Your task to perform on an android device: Show me recent news Image 0: 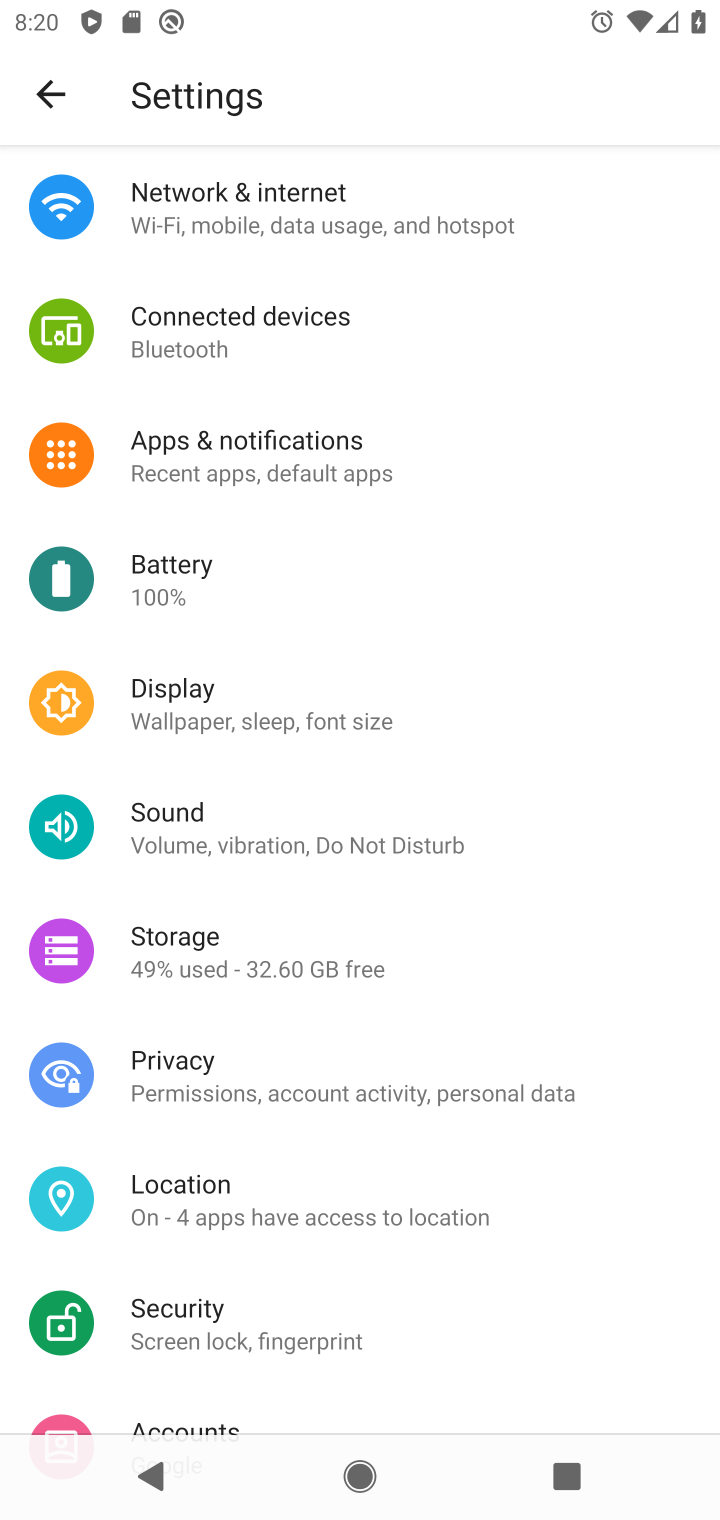
Step 0: press back button
Your task to perform on an android device: Show me recent news Image 1: 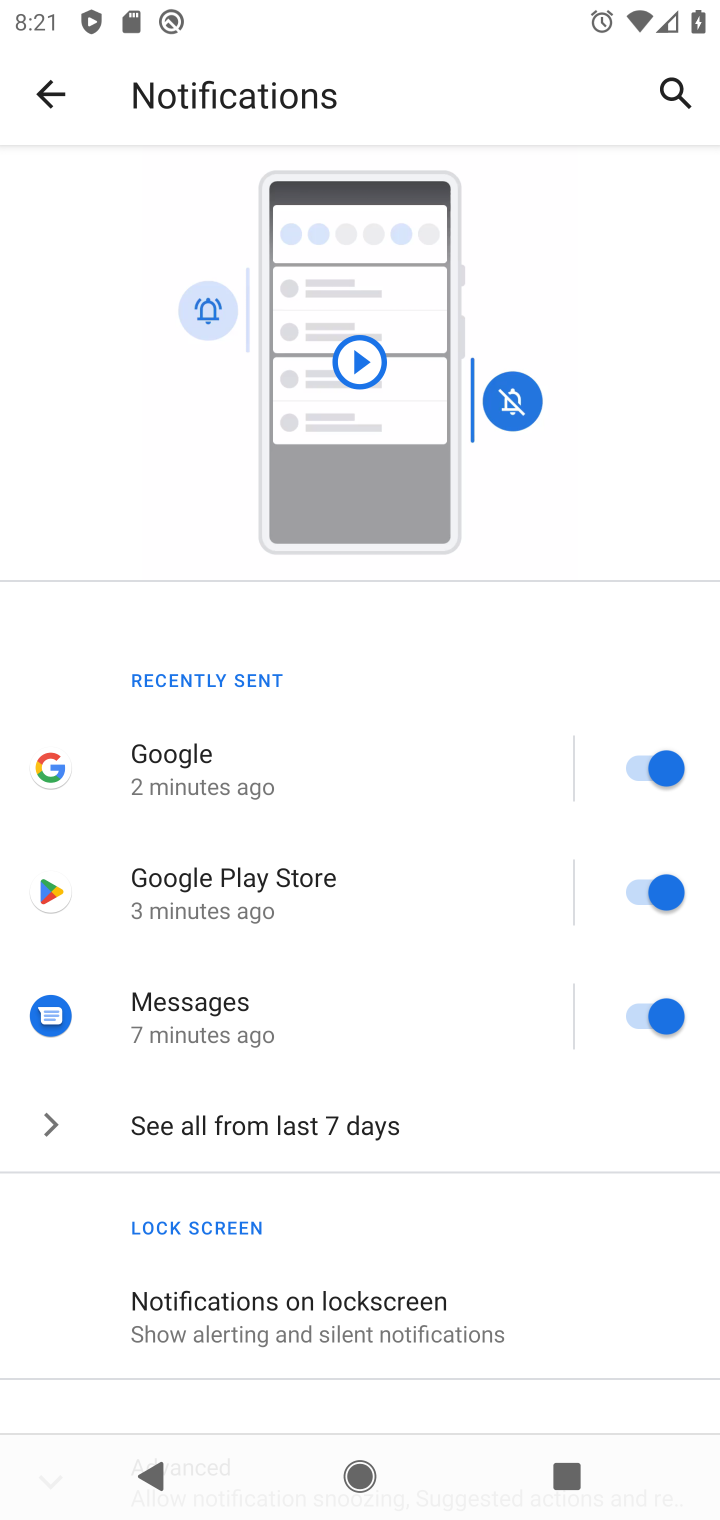
Step 1: click (45, 96)
Your task to perform on an android device: Show me recent news Image 2: 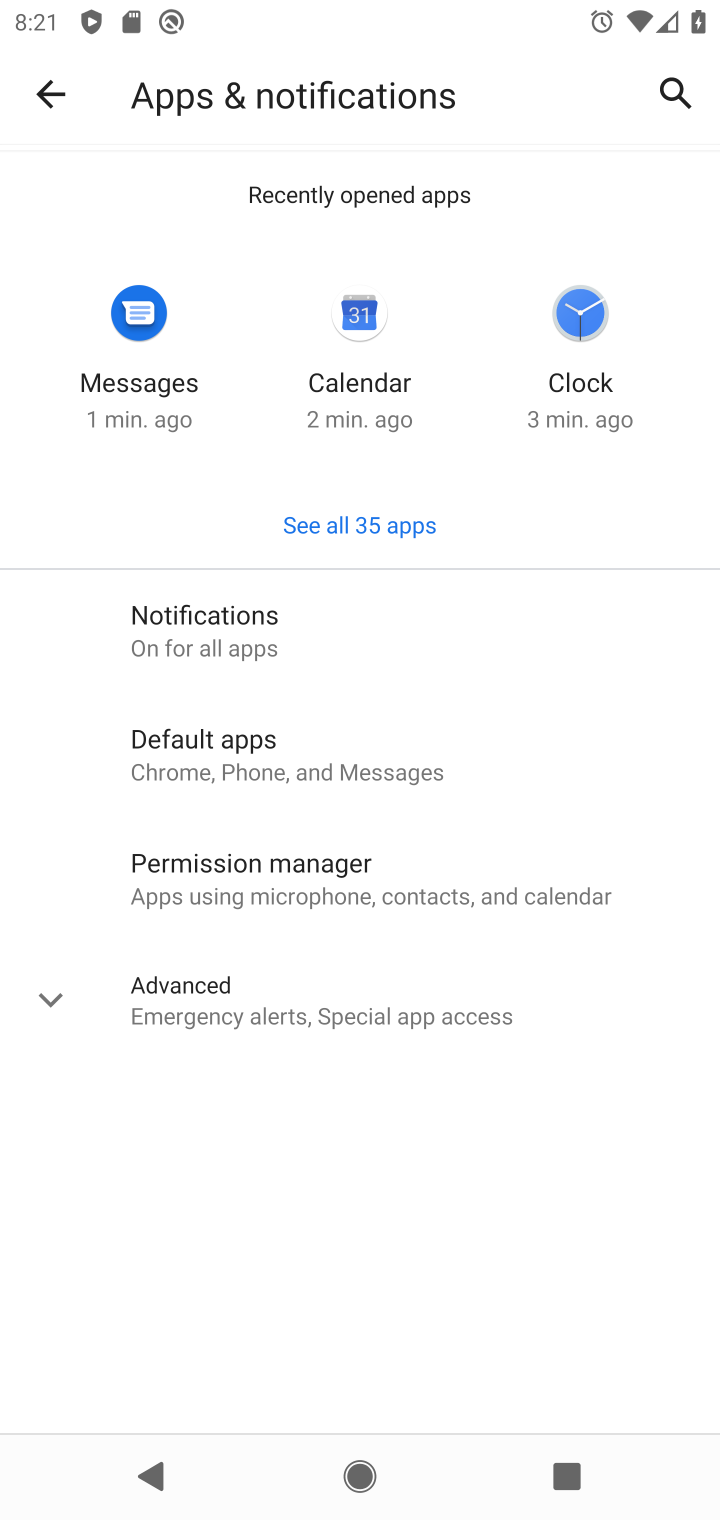
Step 2: click (48, 105)
Your task to perform on an android device: Show me recent news Image 3: 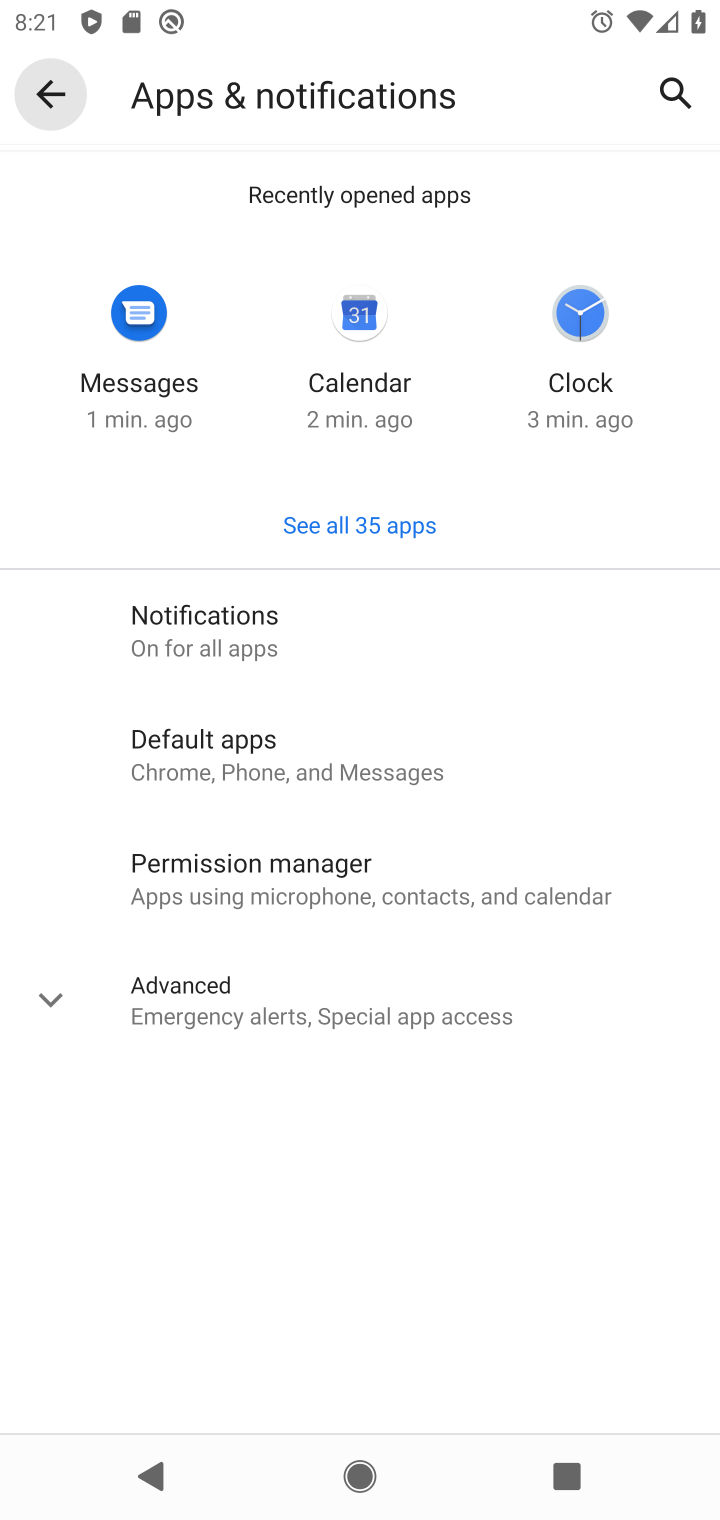
Step 3: click (48, 103)
Your task to perform on an android device: Show me recent news Image 4: 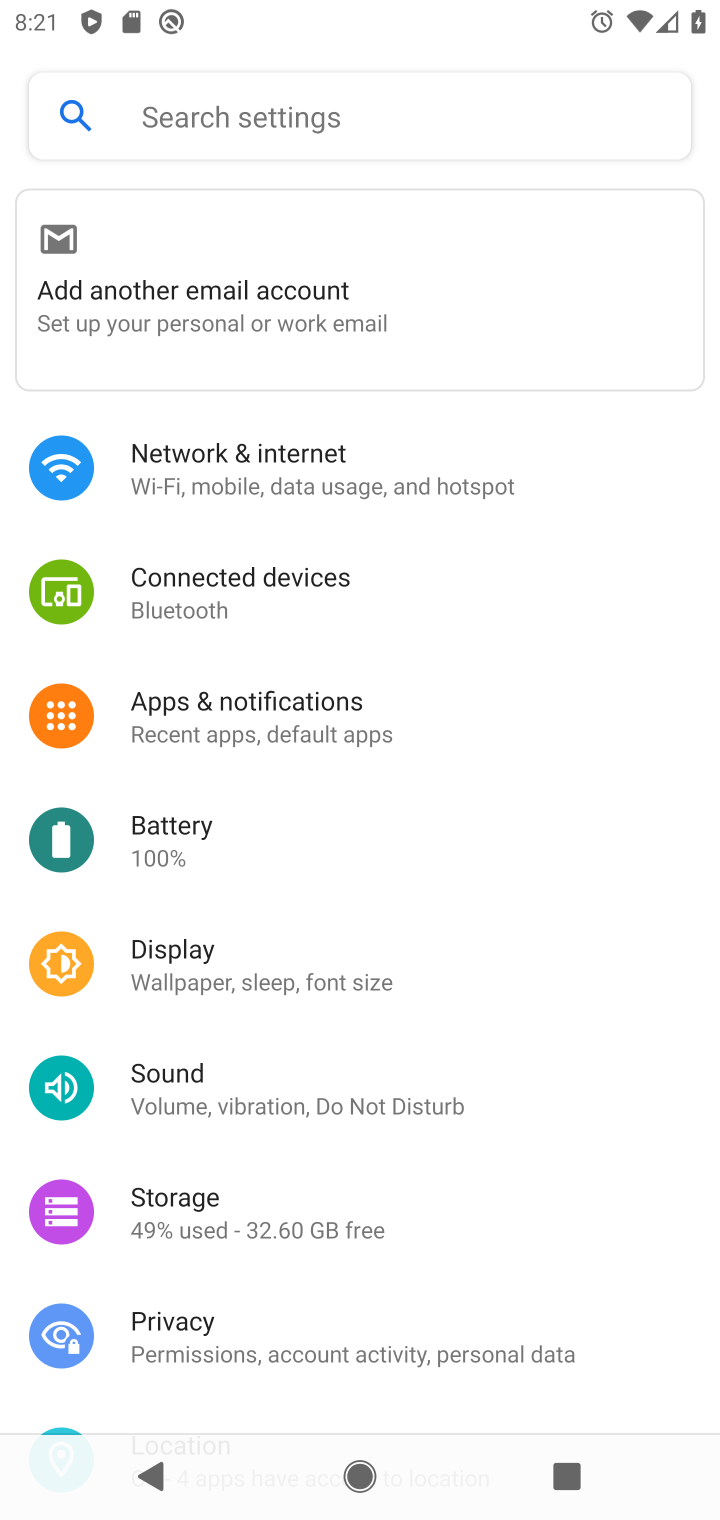
Step 4: press back button
Your task to perform on an android device: Show me recent news Image 5: 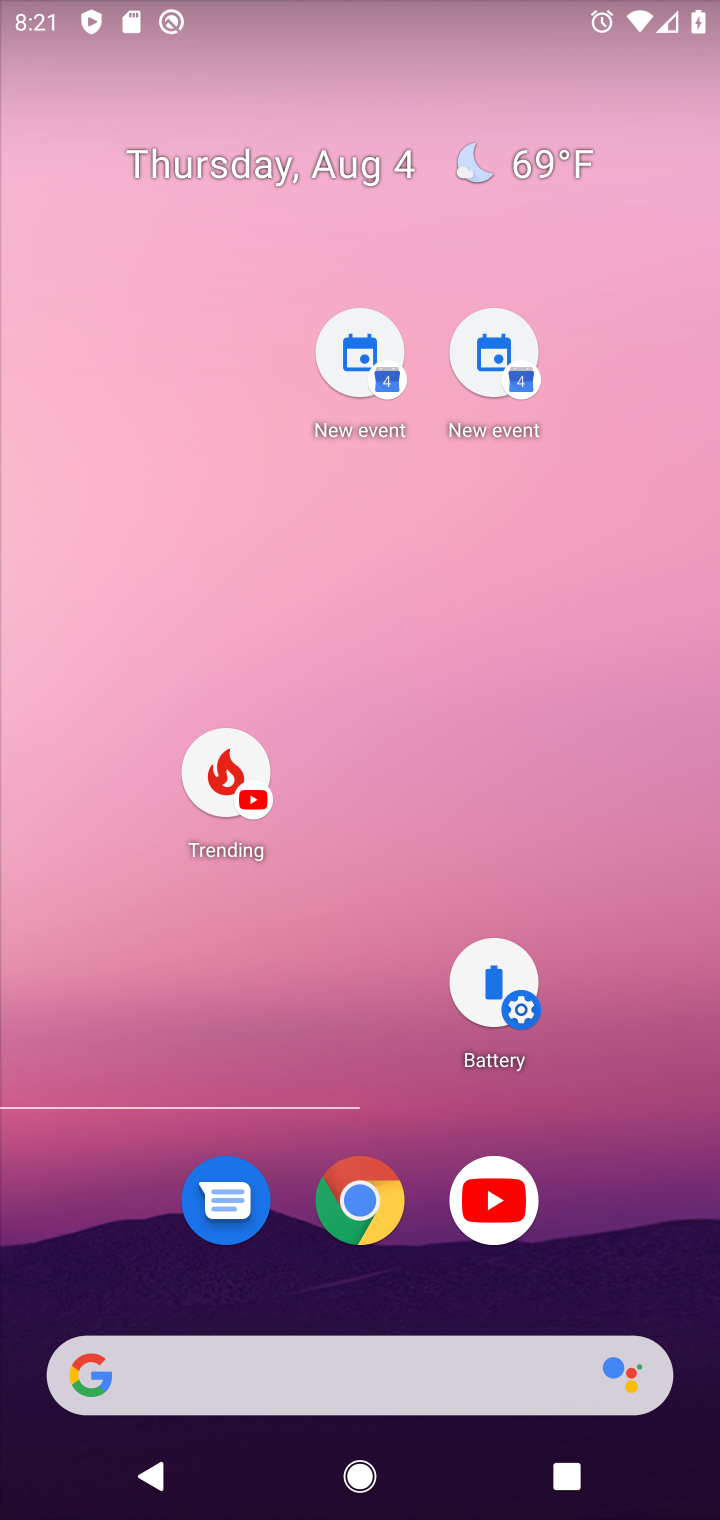
Step 5: click (425, 435)
Your task to perform on an android device: Show me recent news Image 6: 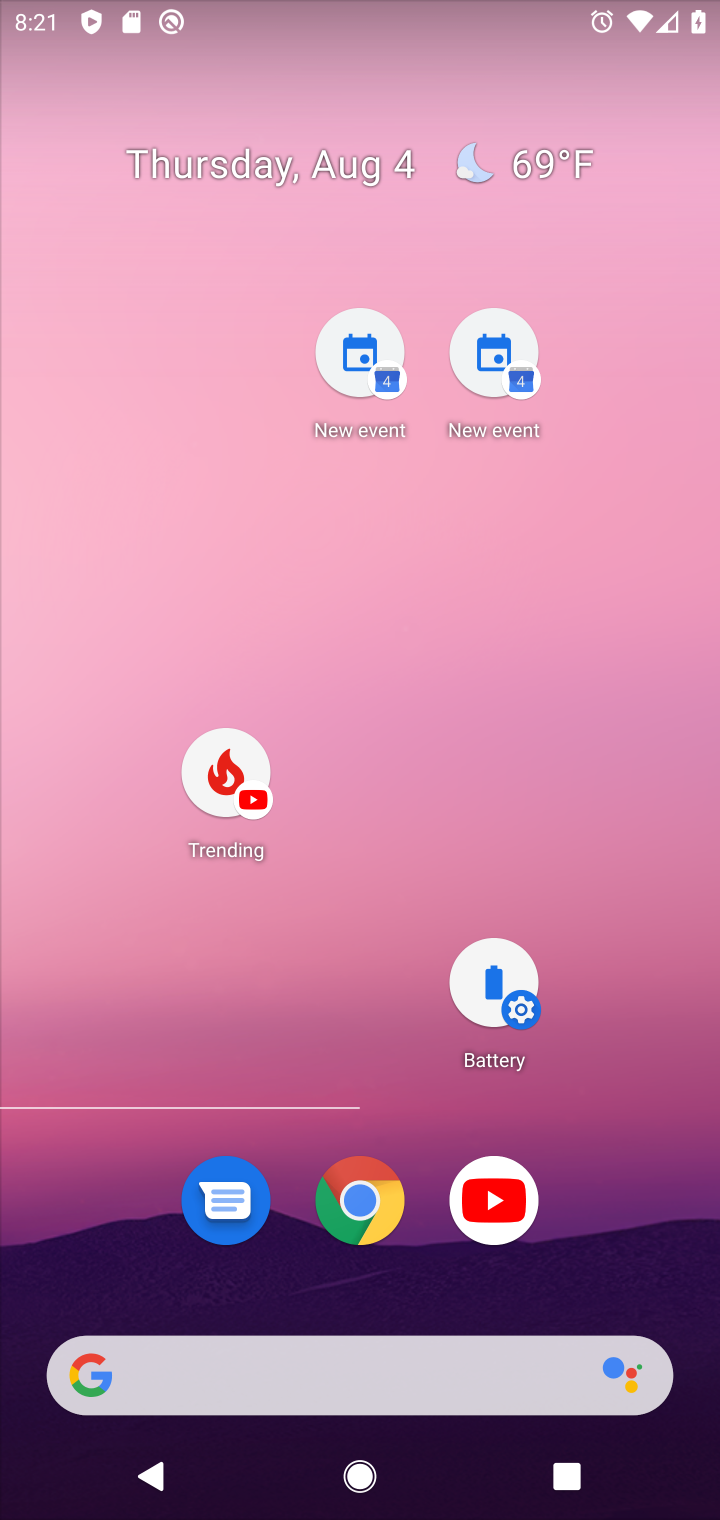
Step 6: drag from (270, 857) to (72, 593)
Your task to perform on an android device: Show me recent news Image 7: 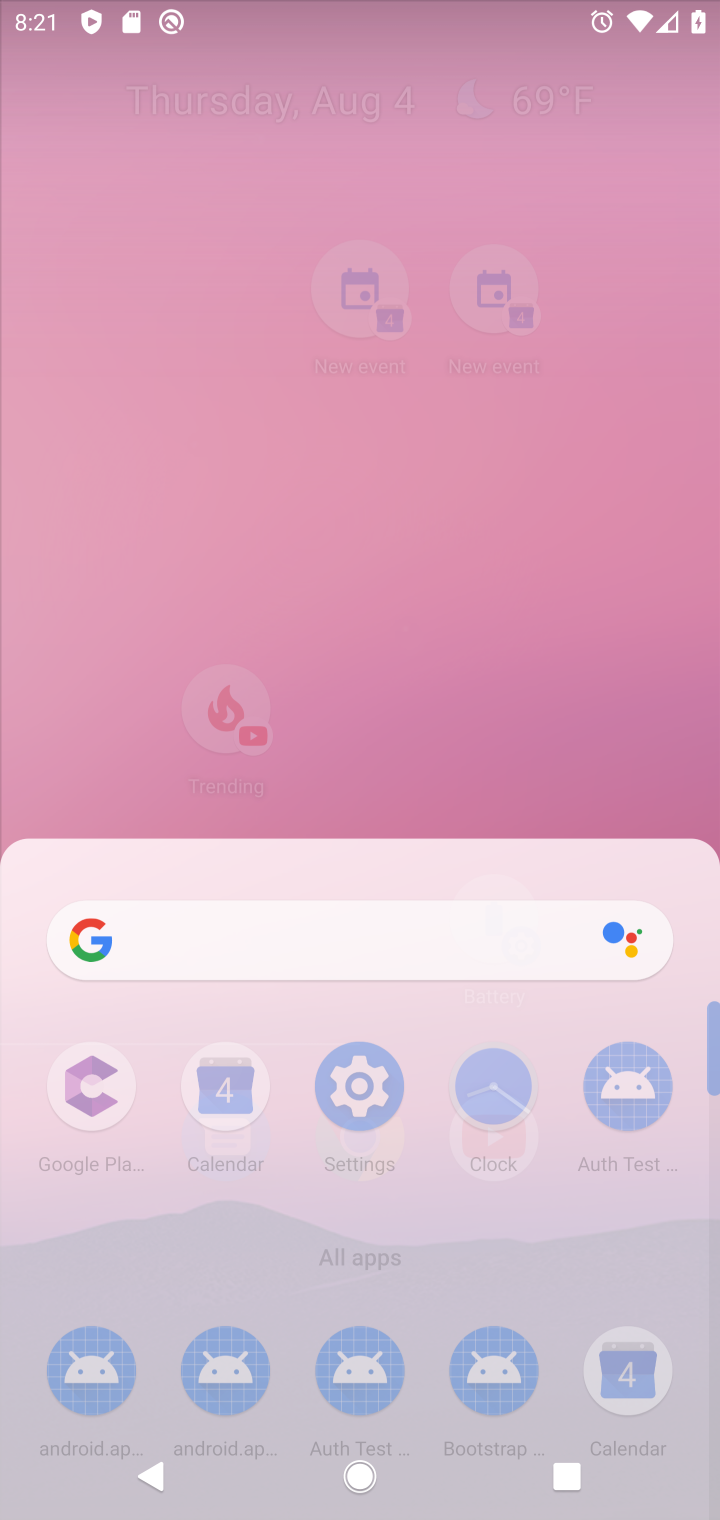
Step 7: drag from (337, 150) to (386, 290)
Your task to perform on an android device: Show me recent news Image 8: 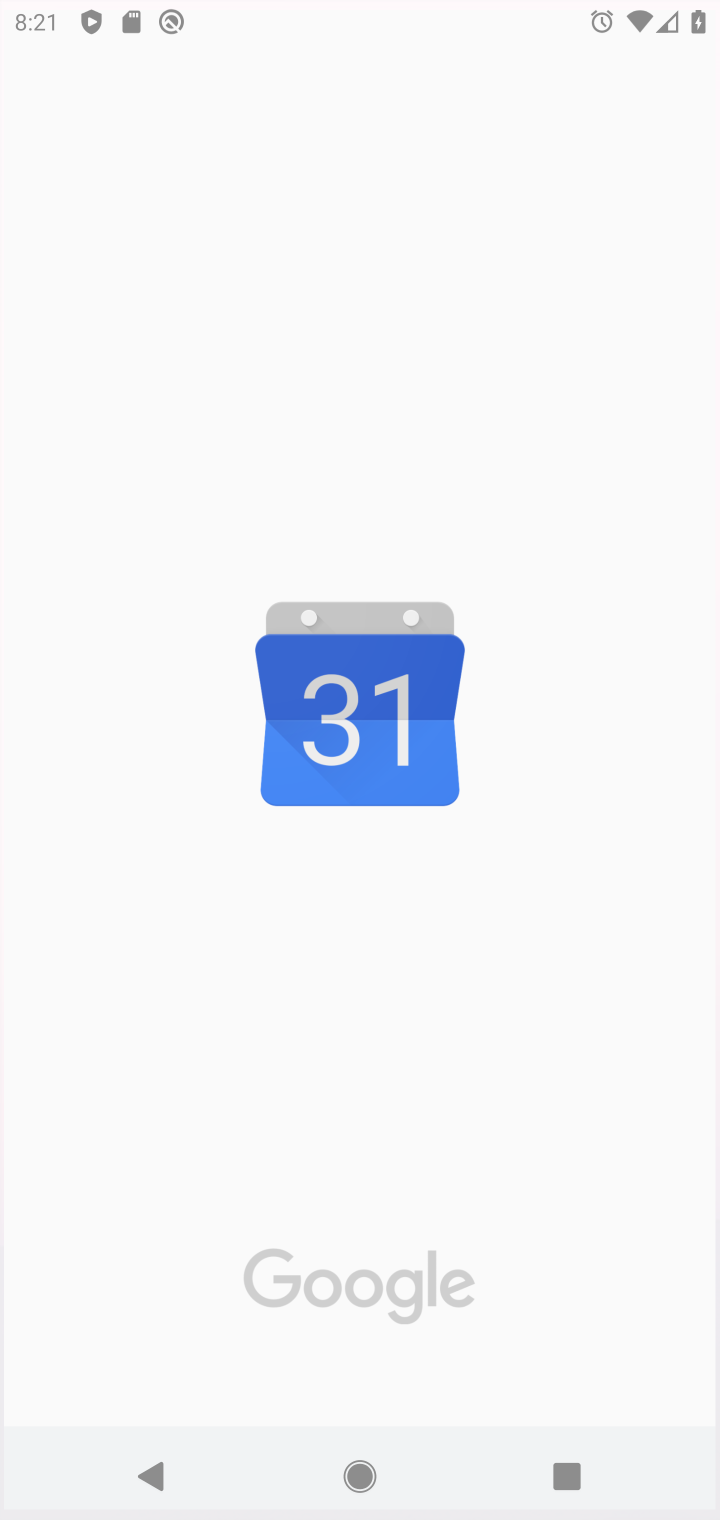
Step 8: drag from (357, 987) to (347, 595)
Your task to perform on an android device: Show me recent news Image 9: 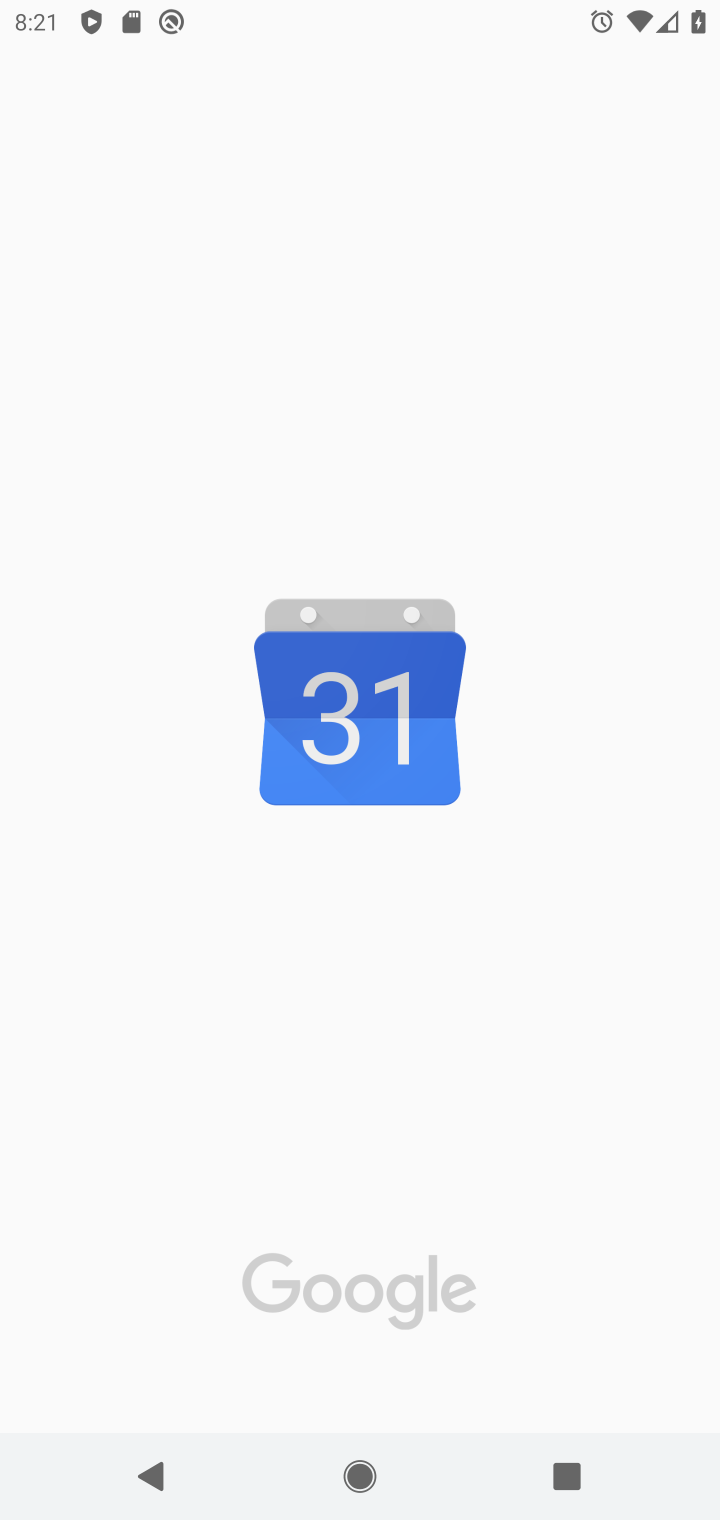
Step 9: click (338, 624)
Your task to perform on an android device: Show me recent news Image 10: 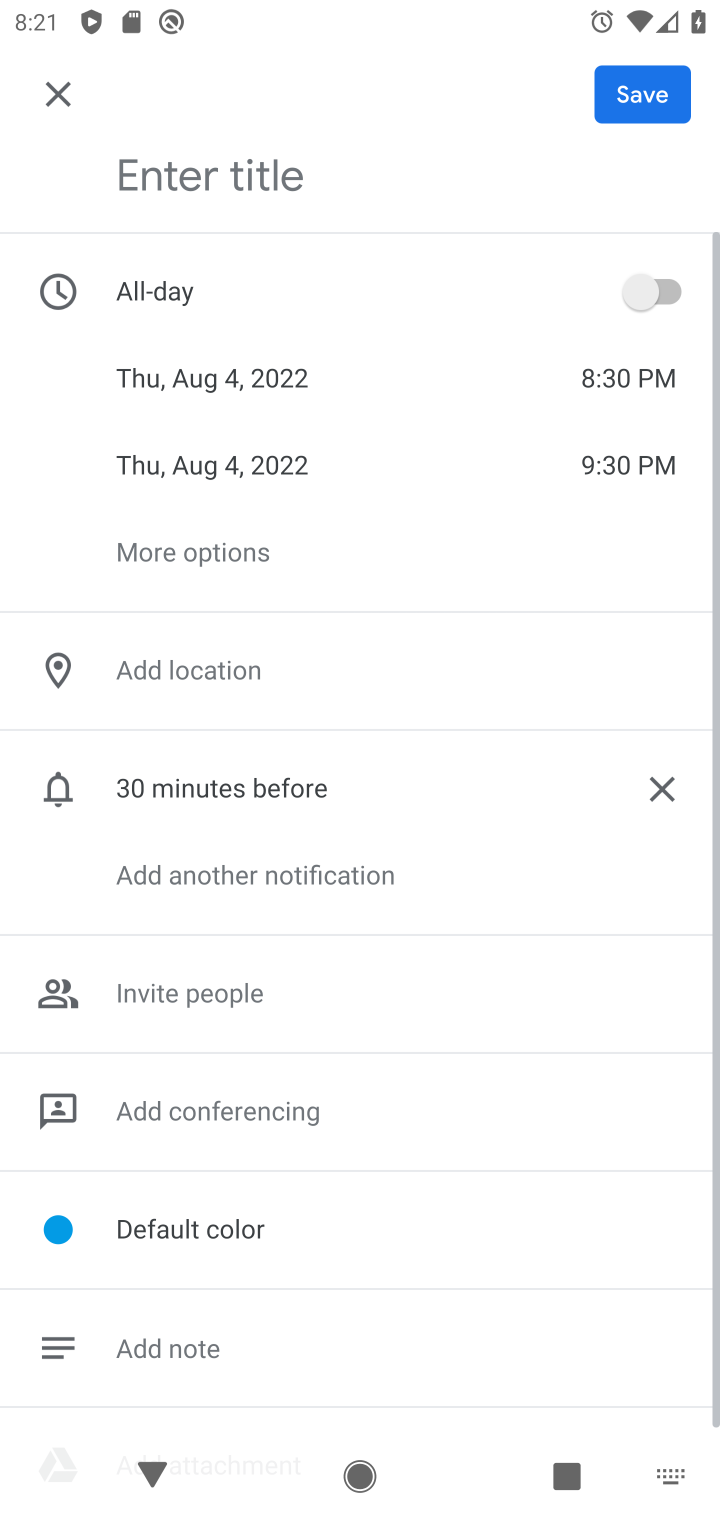
Step 10: press back button
Your task to perform on an android device: Show me recent news Image 11: 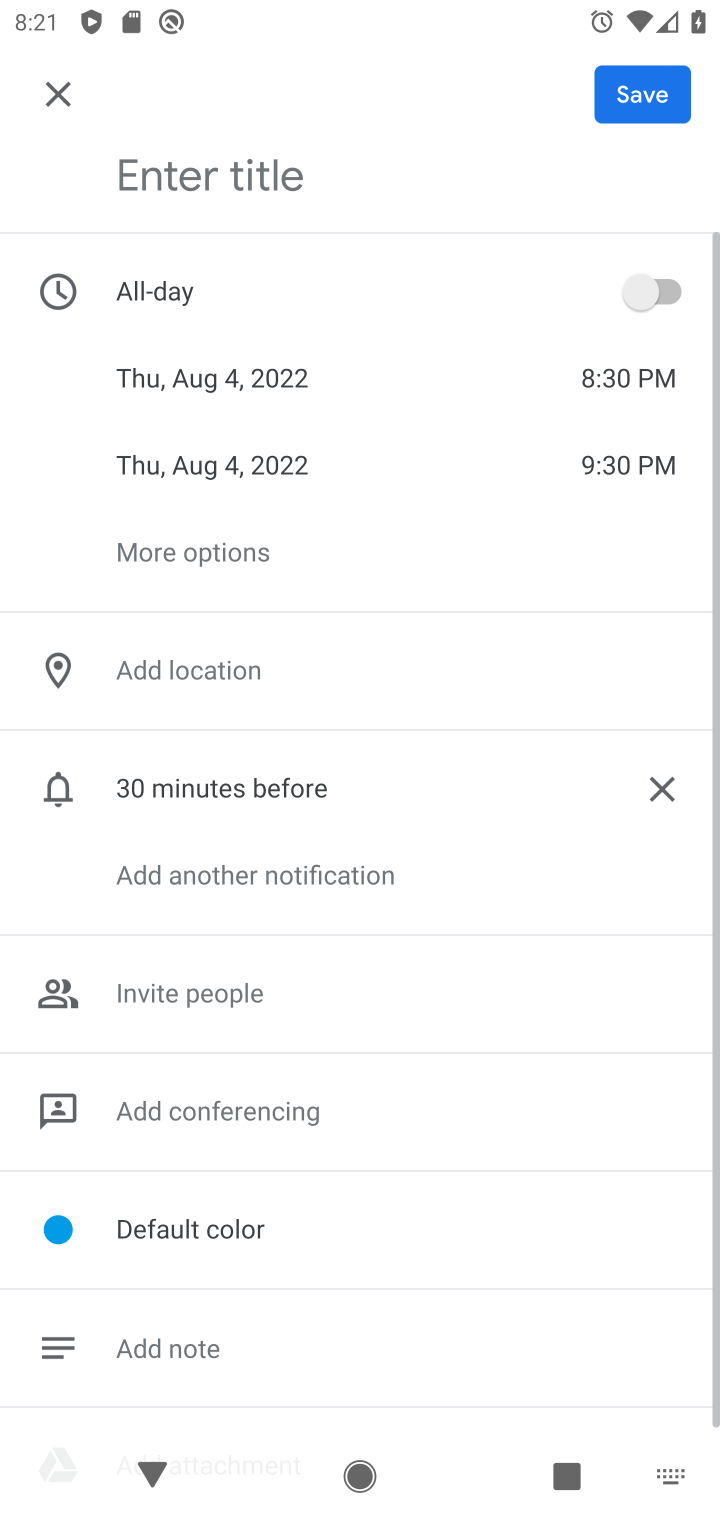
Step 11: click (46, 83)
Your task to perform on an android device: Show me recent news Image 12: 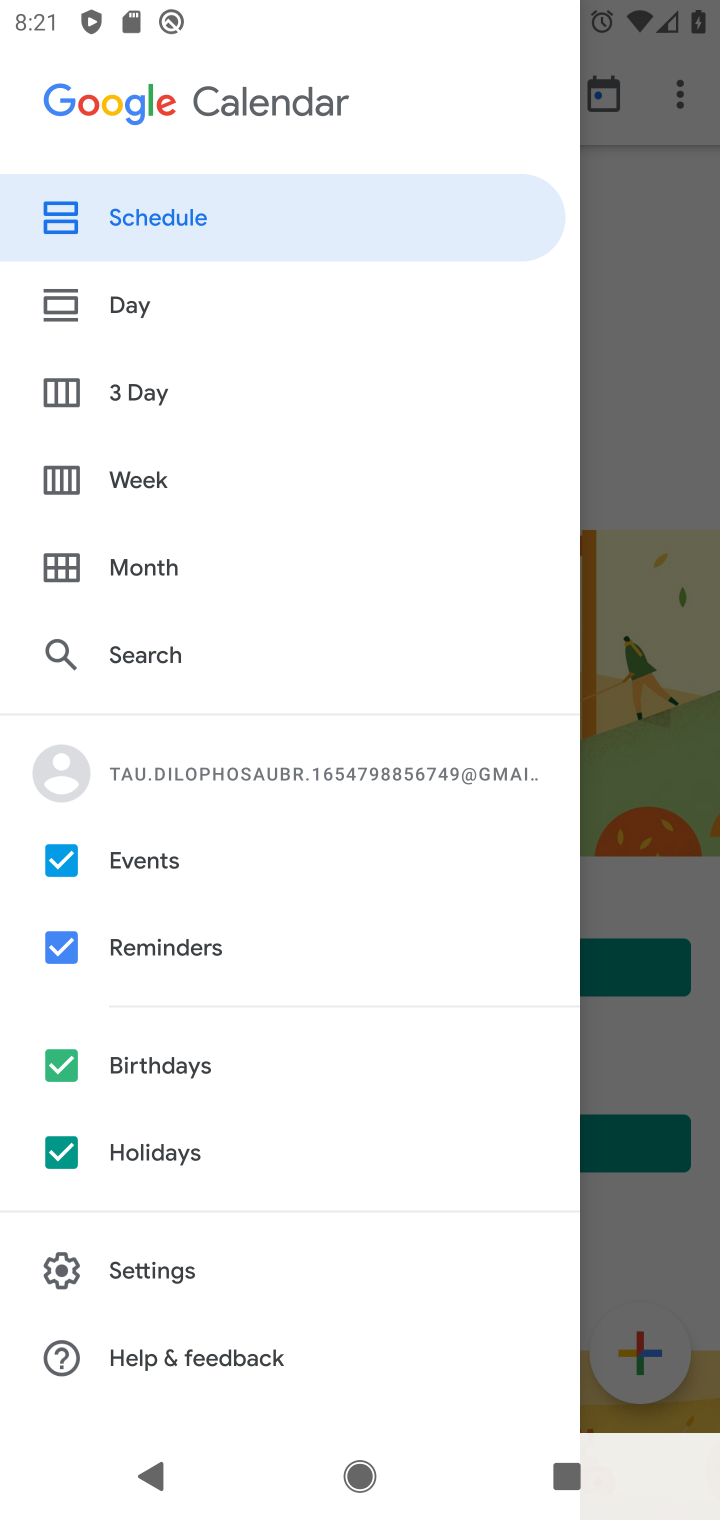
Step 12: press home button
Your task to perform on an android device: Show me recent news Image 13: 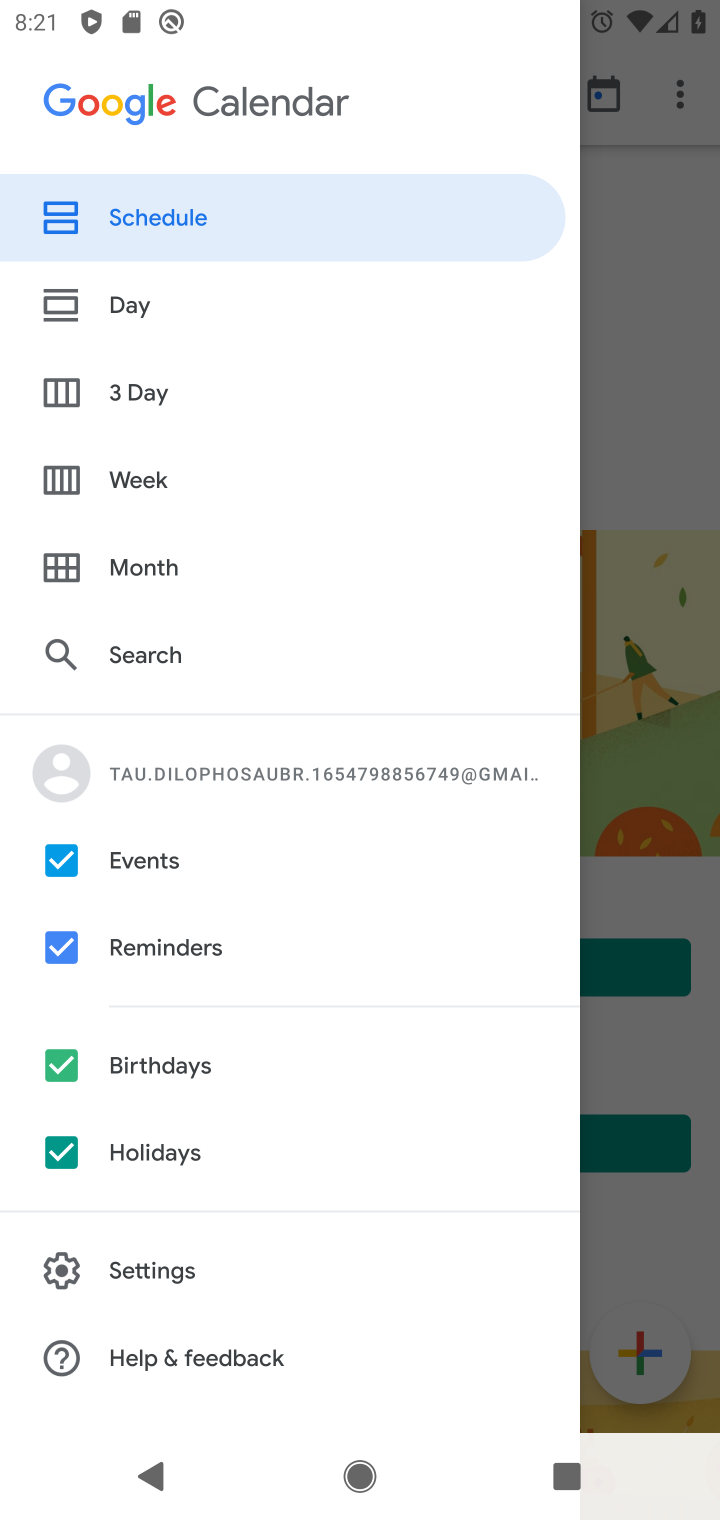
Step 13: click (603, 858)
Your task to perform on an android device: Show me recent news Image 14: 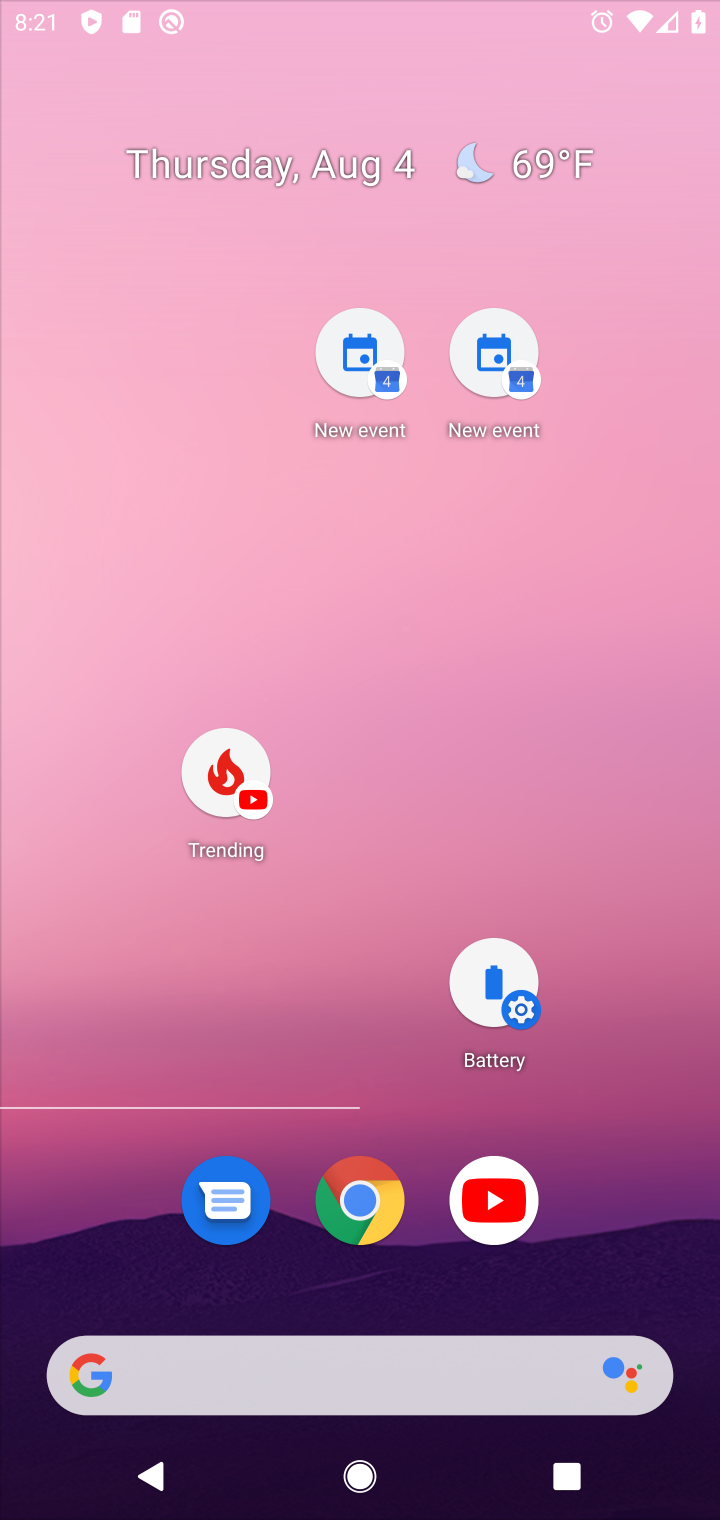
Step 14: click (603, 858)
Your task to perform on an android device: Show me recent news Image 15: 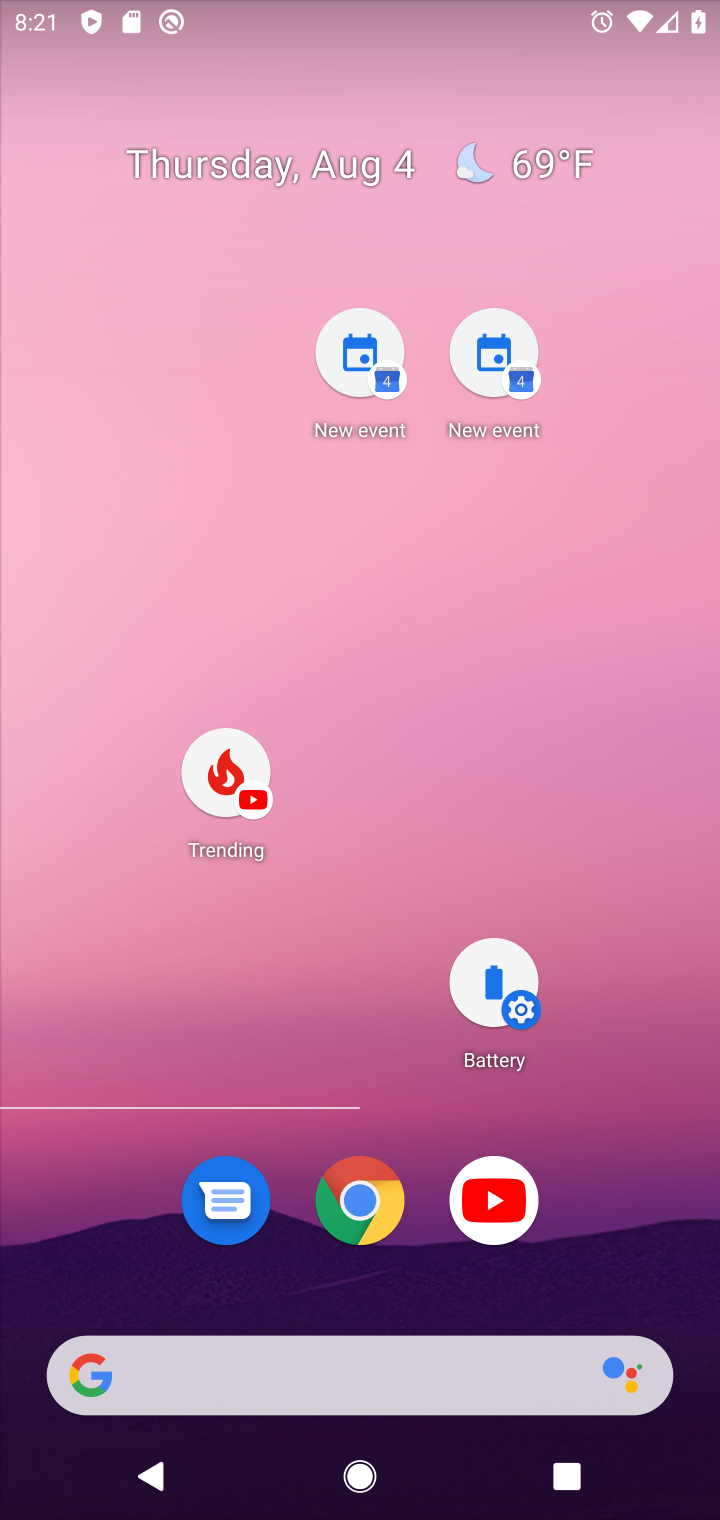
Step 15: drag from (403, 1394) to (368, 446)
Your task to perform on an android device: Show me recent news Image 16: 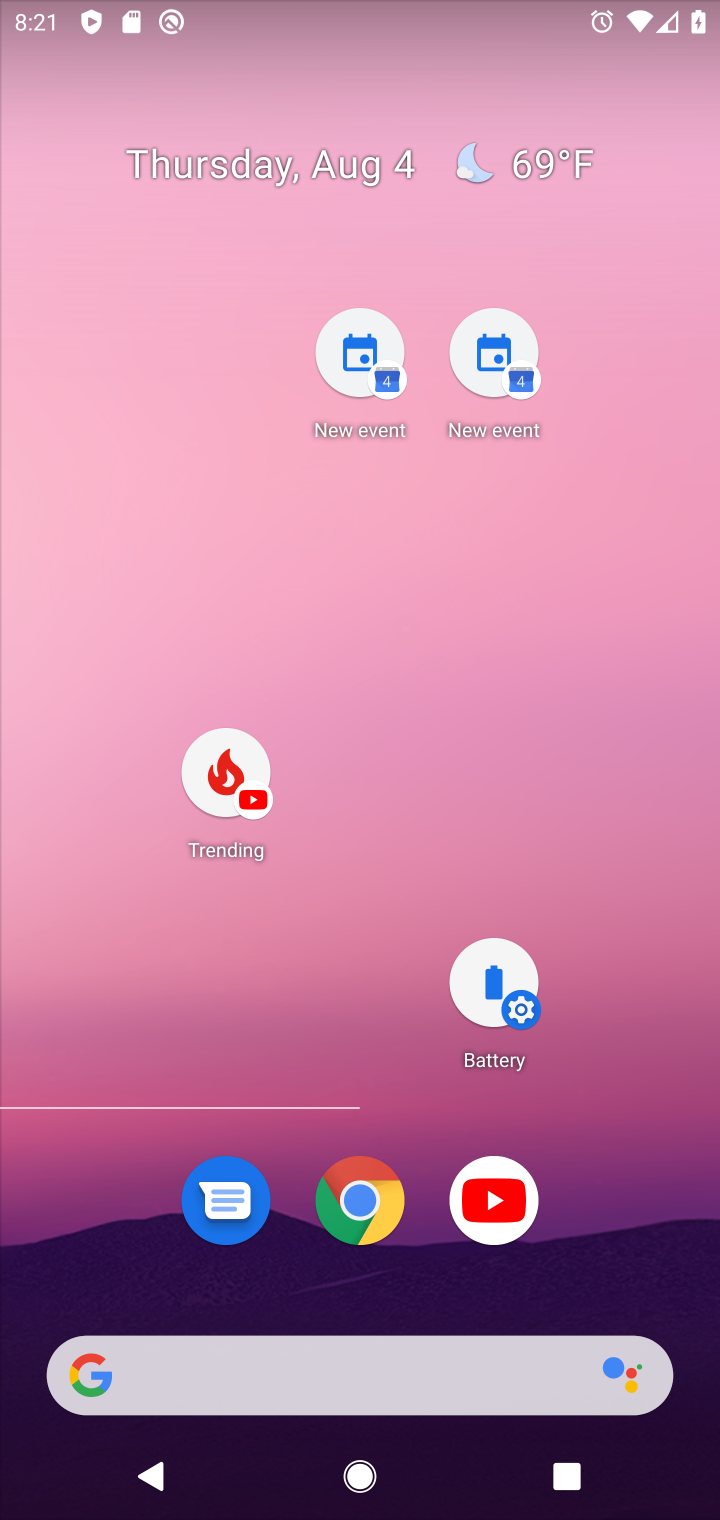
Step 16: drag from (463, 1199) to (458, 560)
Your task to perform on an android device: Show me recent news Image 17: 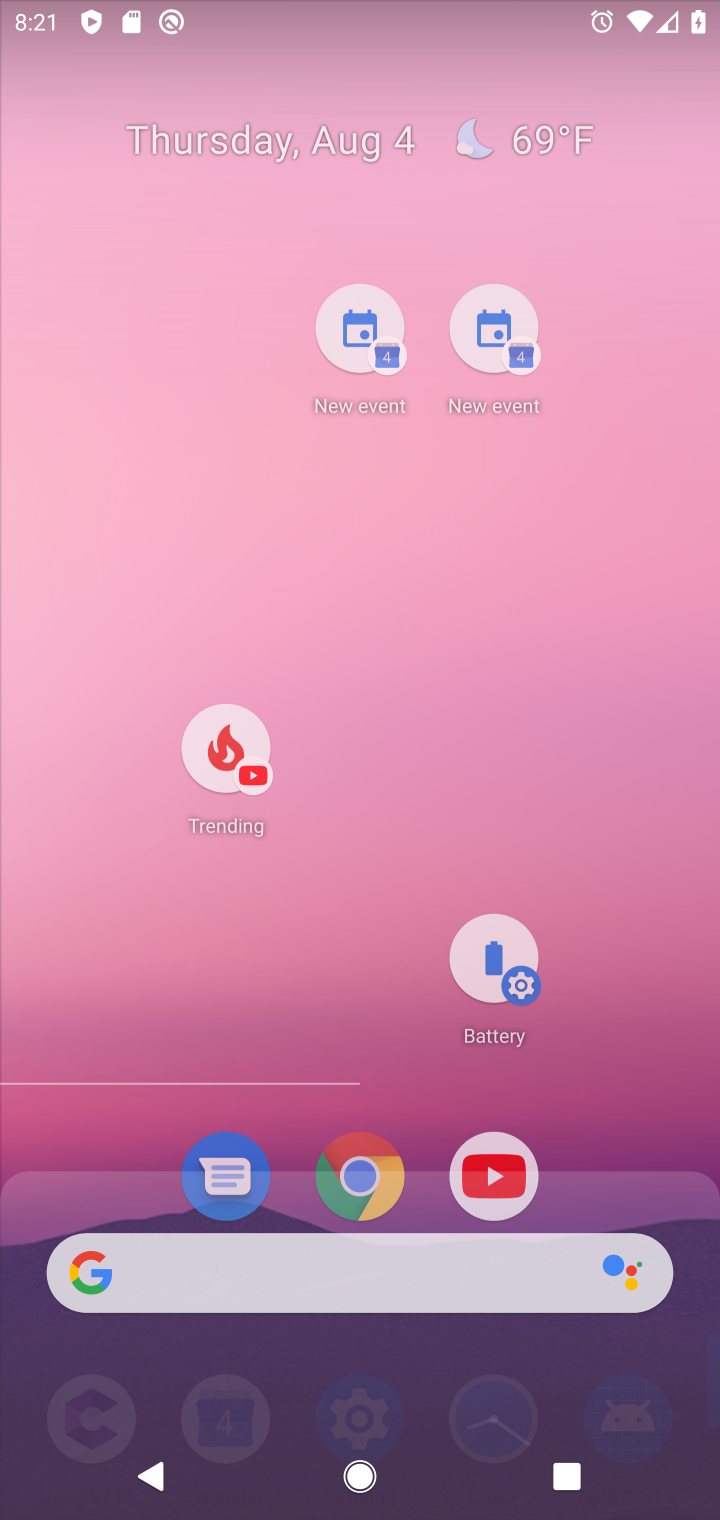
Step 17: drag from (487, 1242) to (389, 565)
Your task to perform on an android device: Show me recent news Image 18: 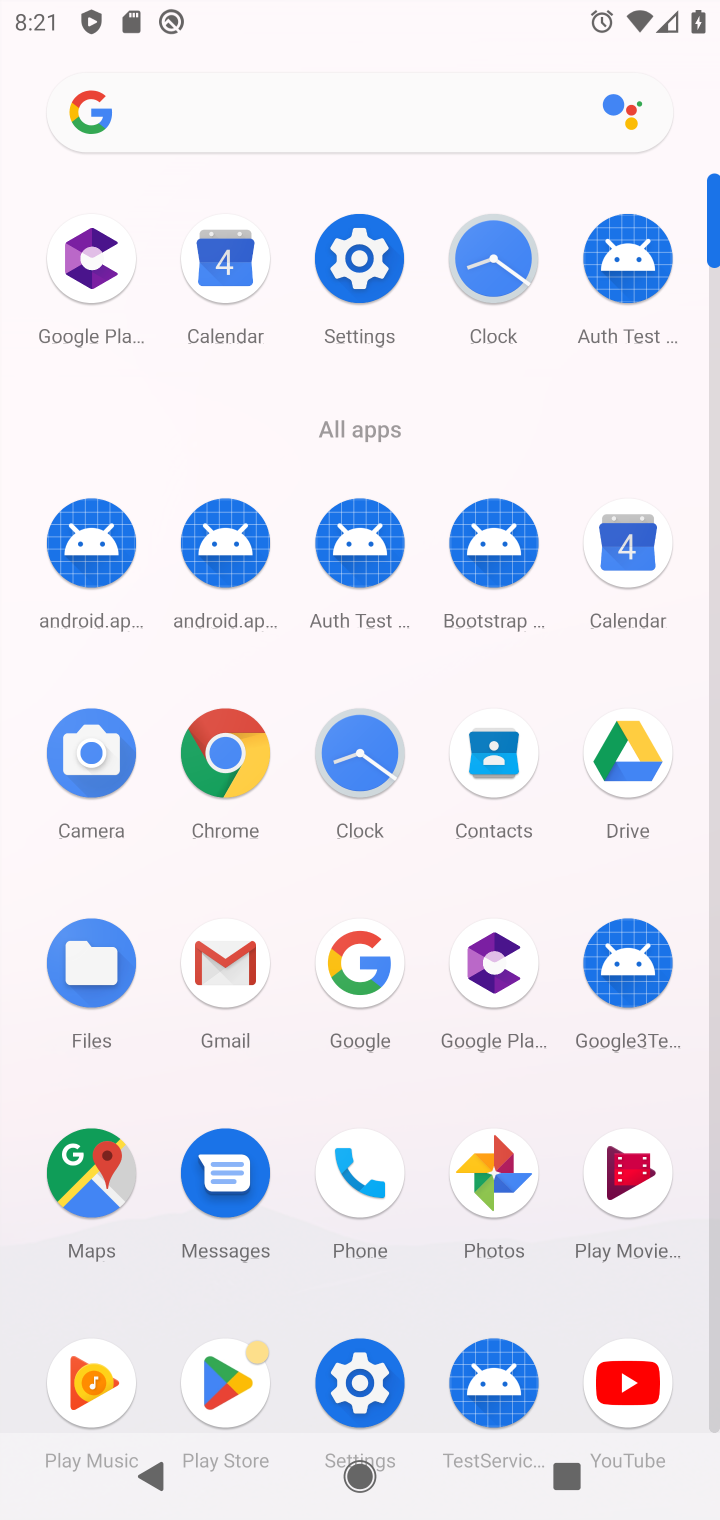
Step 18: click (240, 752)
Your task to perform on an android device: Show me recent news Image 19: 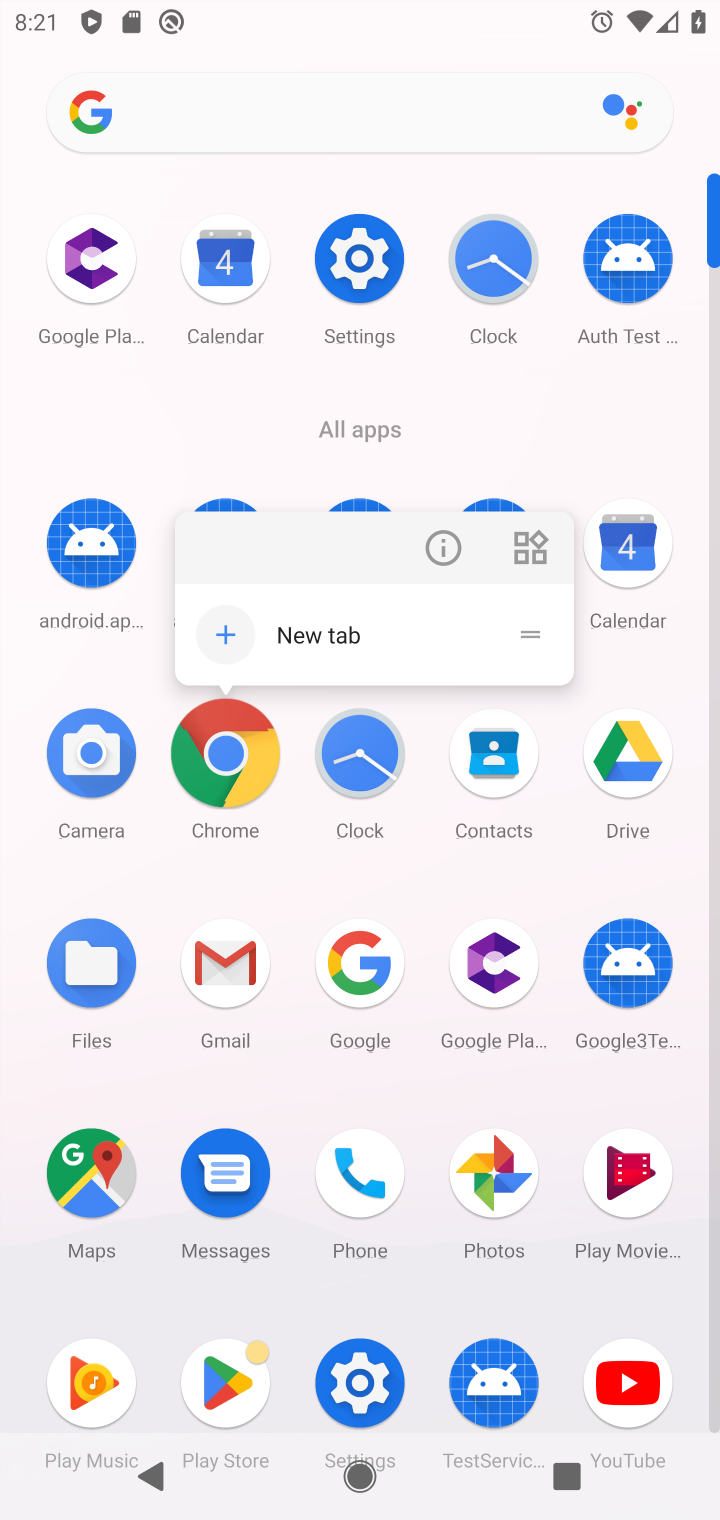
Step 19: click (240, 752)
Your task to perform on an android device: Show me recent news Image 20: 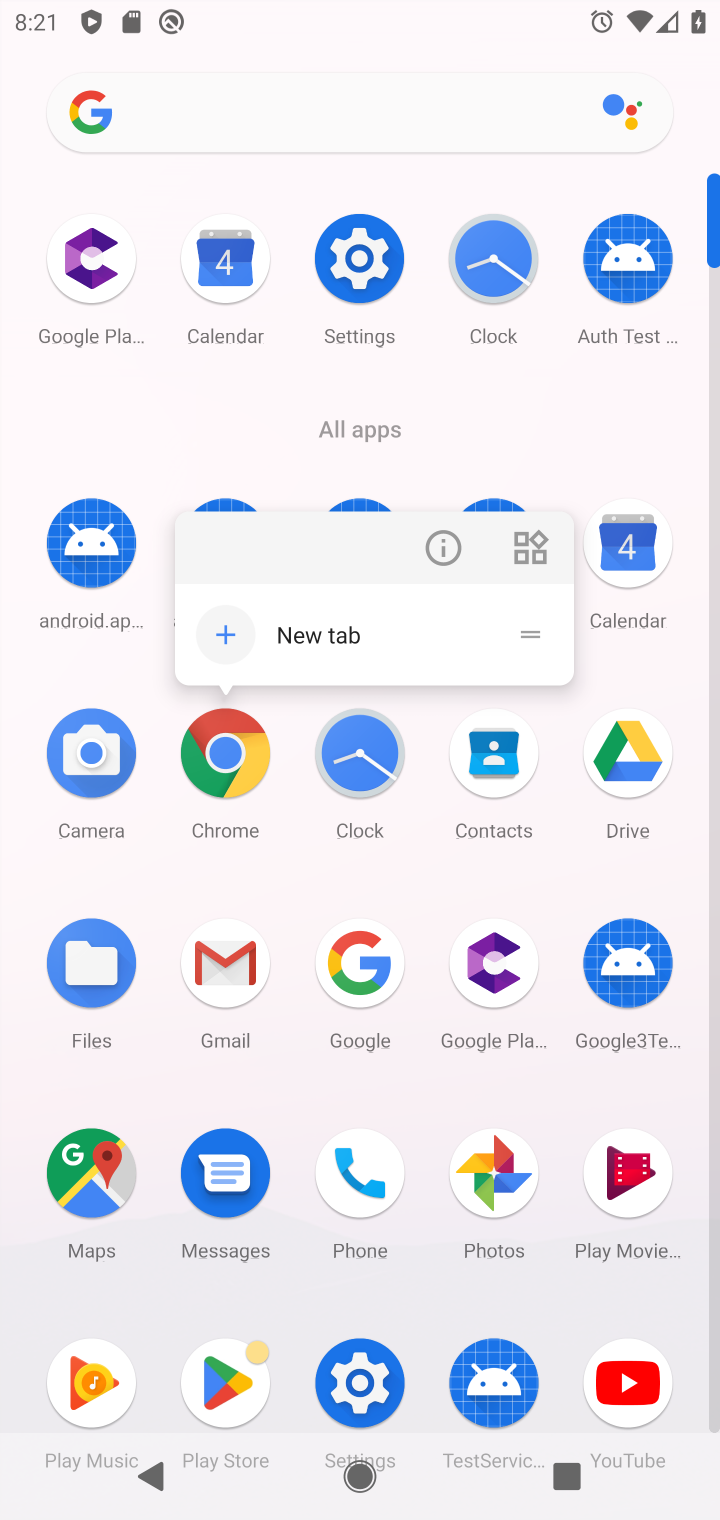
Step 20: click (315, 621)
Your task to perform on an android device: Show me recent news Image 21: 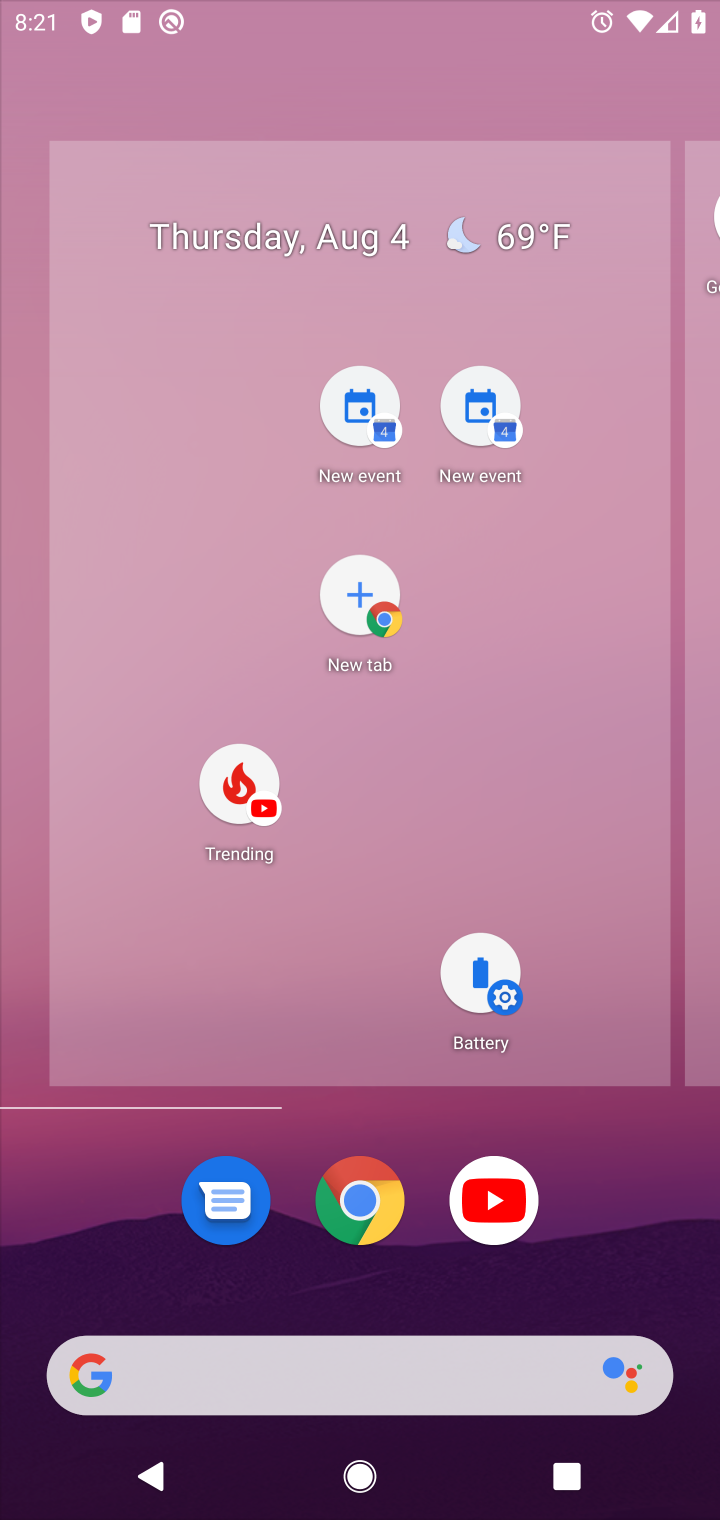
Step 21: drag from (438, 1287) to (364, 592)
Your task to perform on an android device: Show me recent news Image 22: 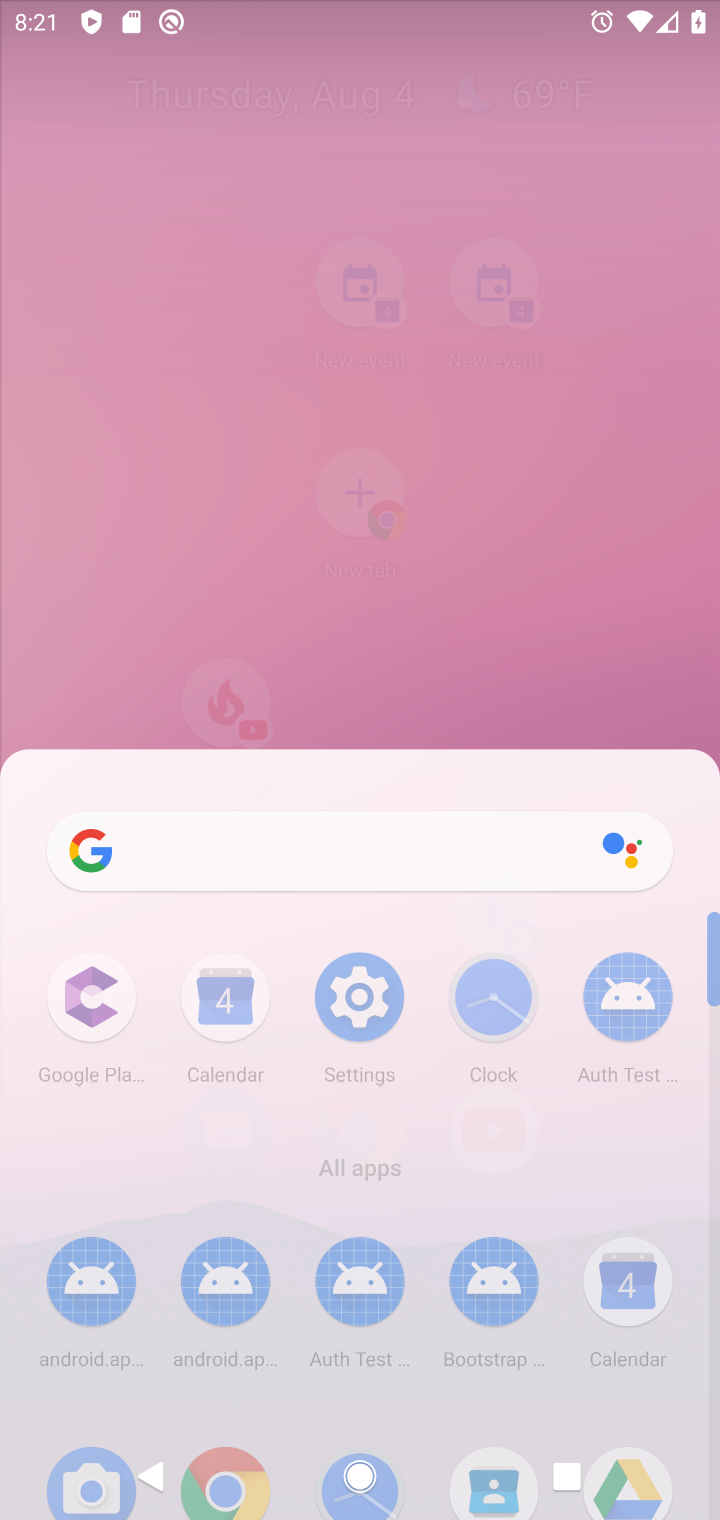
Step 22: drag from (408, 1043) to (324, 381)
Your task to perform on an android device: Show me recent news Image 23: 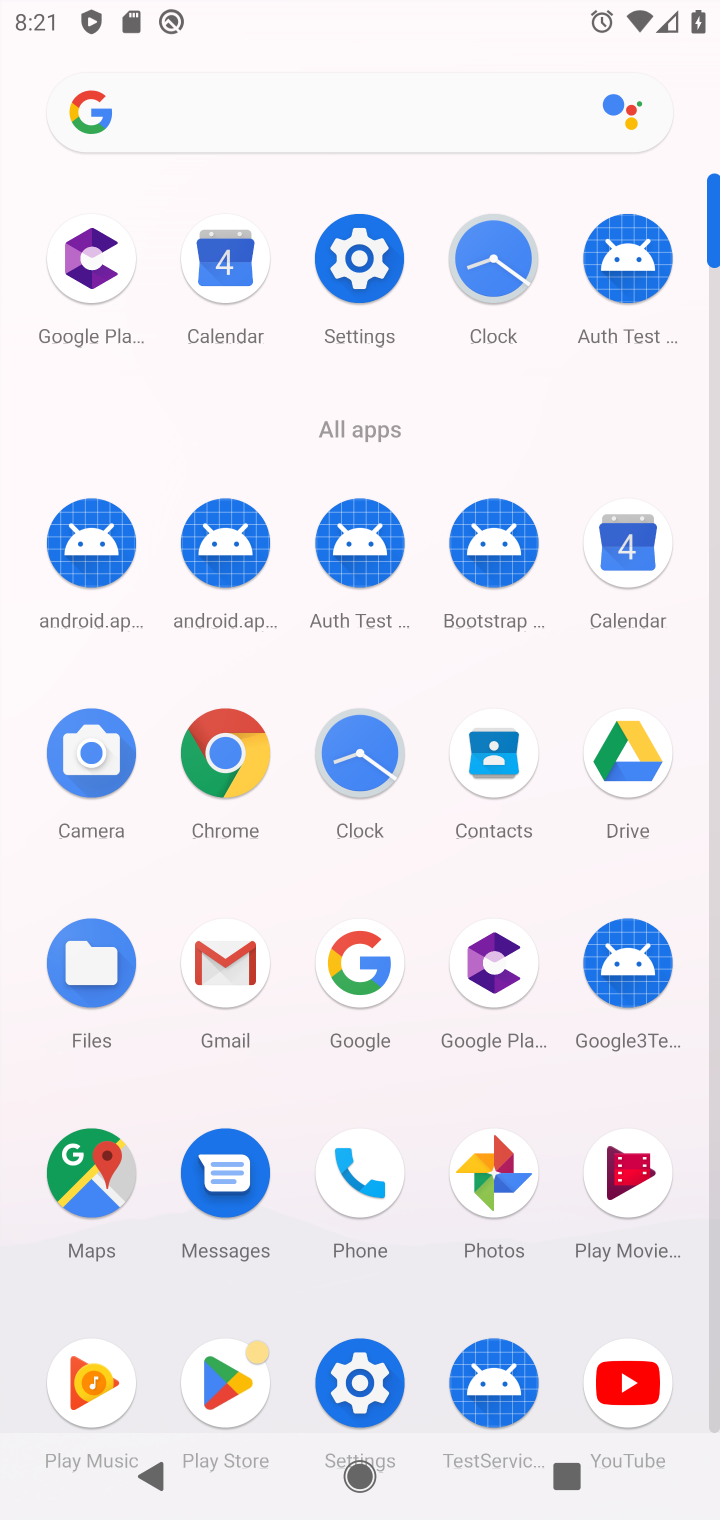
Step 23: drag from (386, 982) to (323, 590)
Your task to perform on an android device: Show me recent news Image 24: 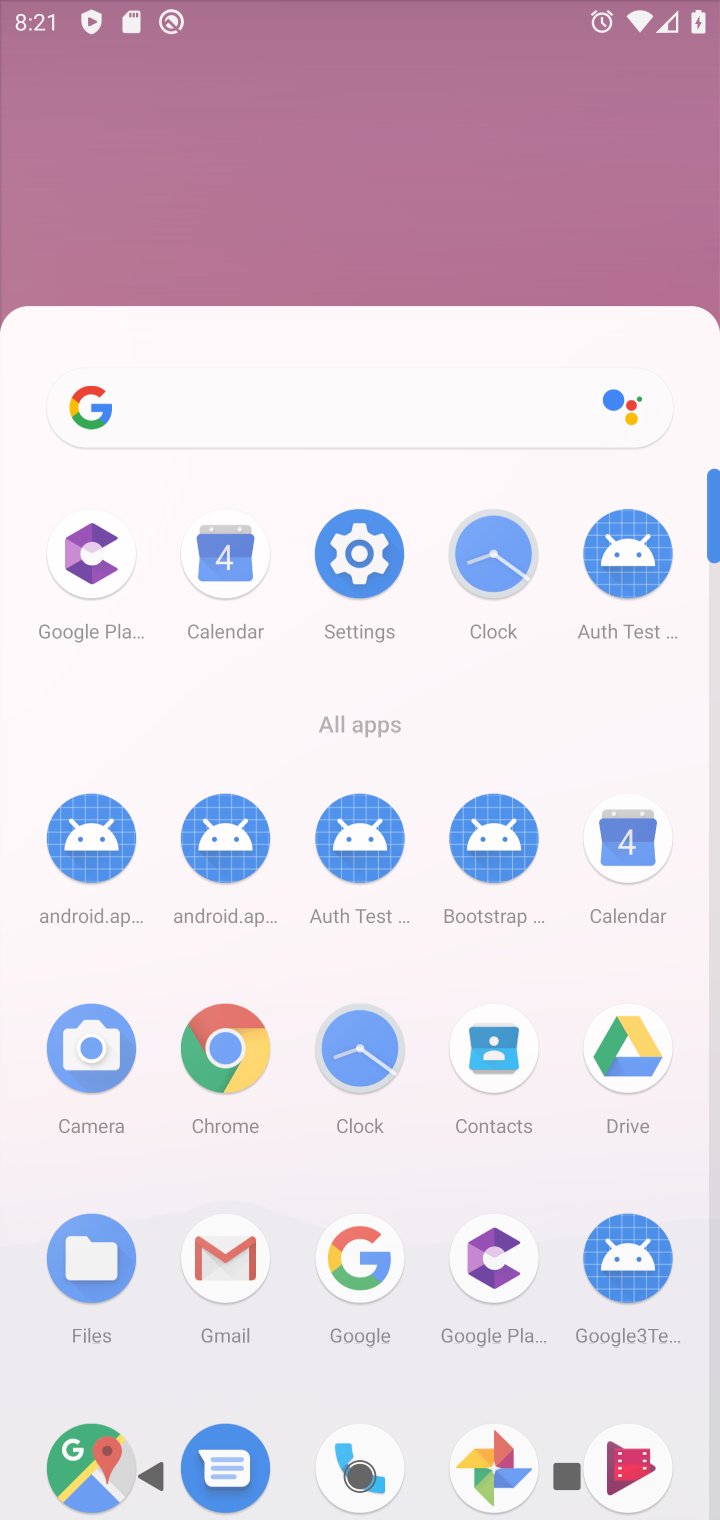
Step 24: drag from (289, 1095) to (224, 505)
Your task to perform on an android device: Show me recent news Image 25: 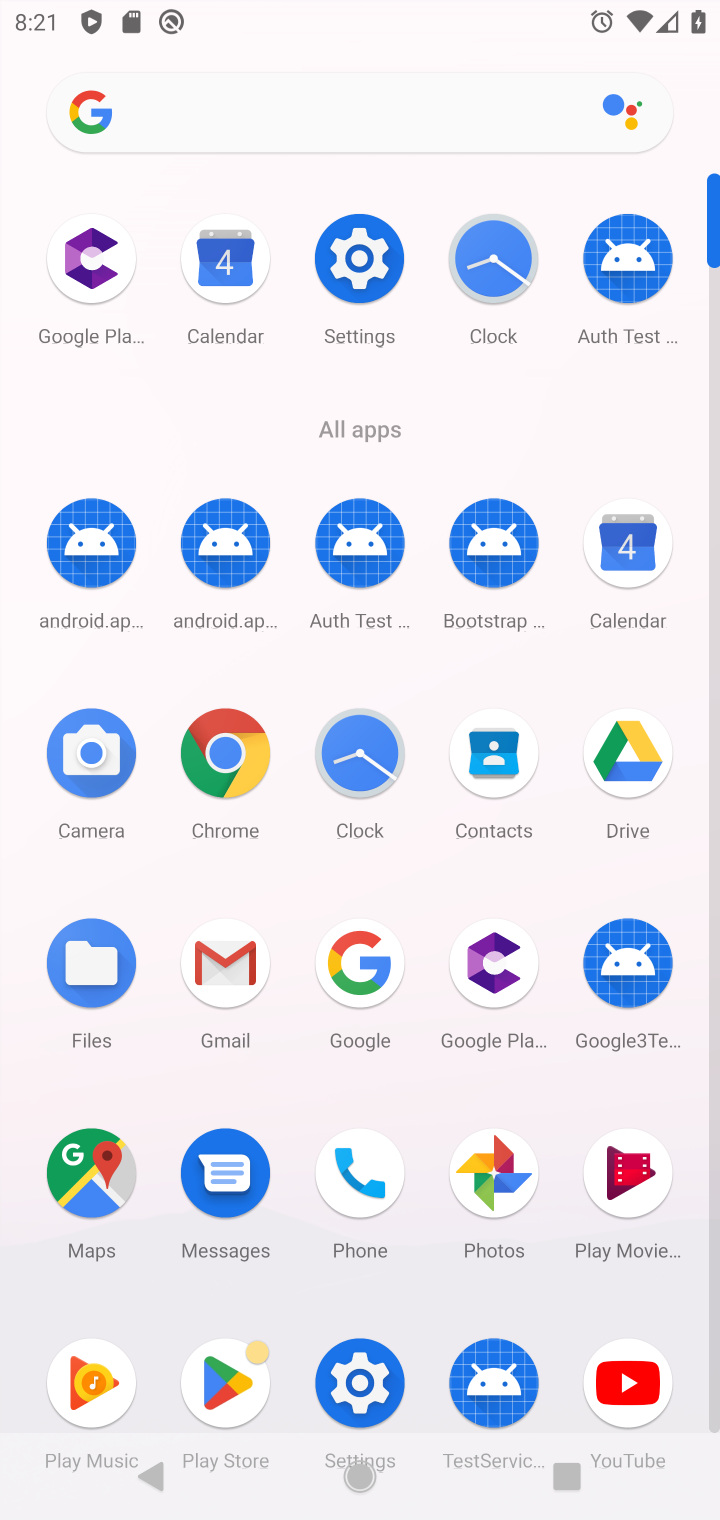
Step 25: click (280, 458)
Your task to perform on an android device: Show me recent news Image 26: 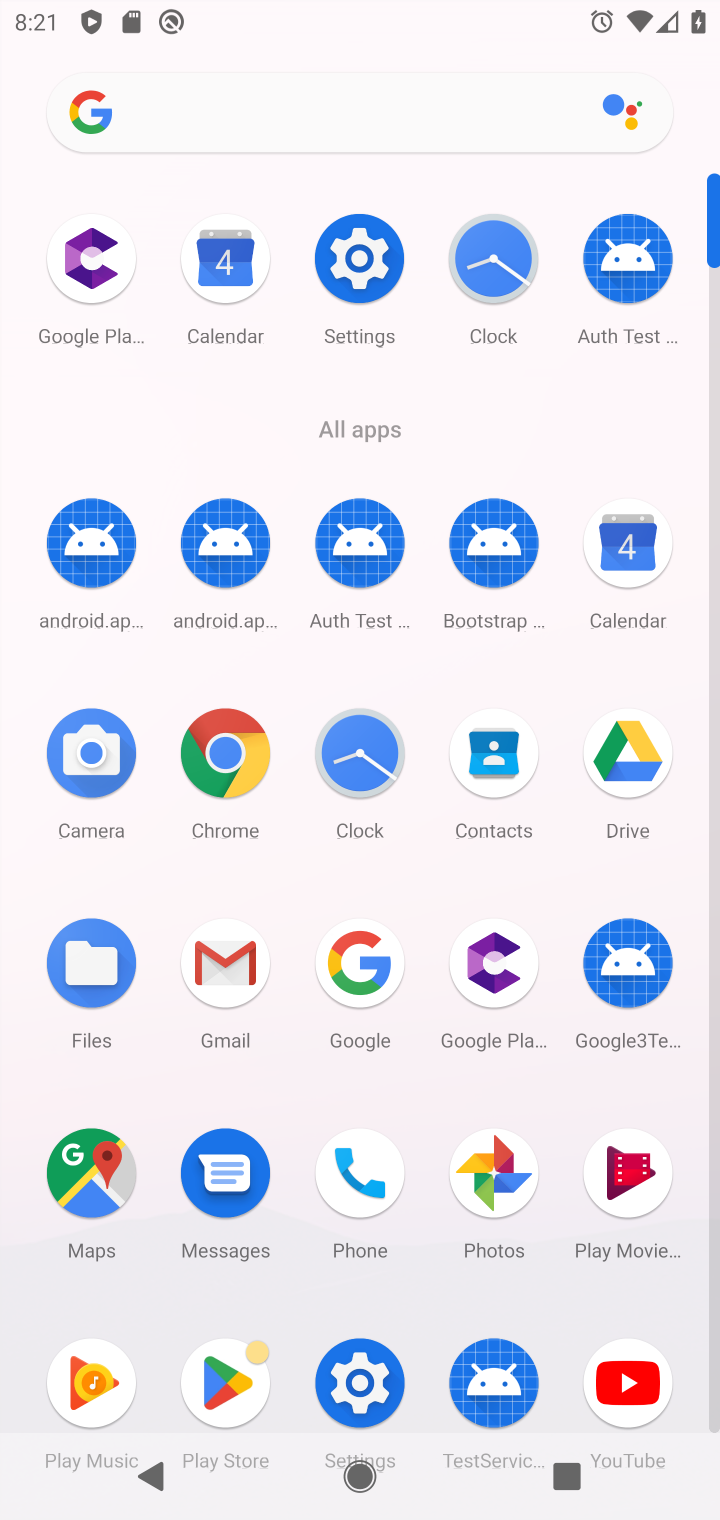
Step 26: click (397, 601)
Your task to perform on an android device: Show me recent news Image 27: 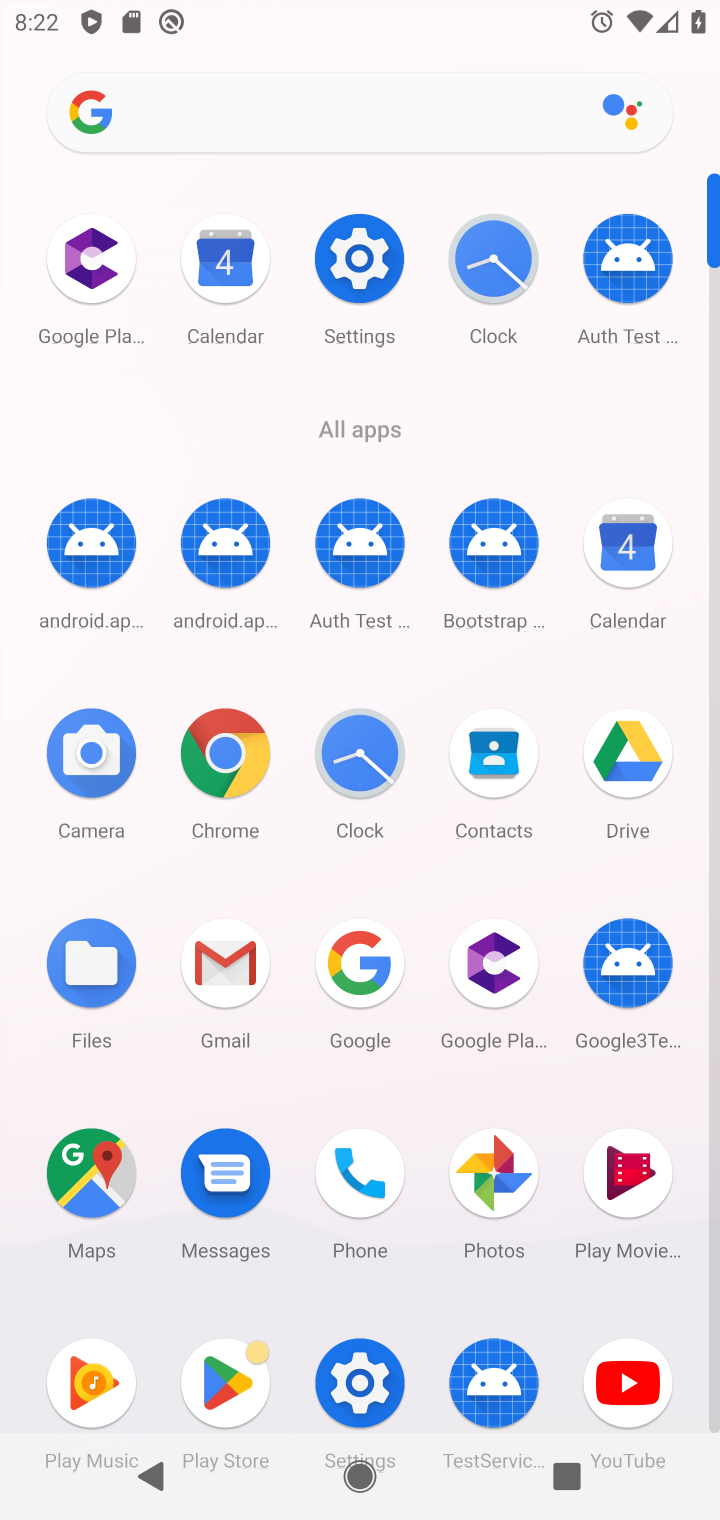
Step 27: drag from (376, 770) to (421, 440)
Your task to perform on an android device: Show me recent news Image 28: 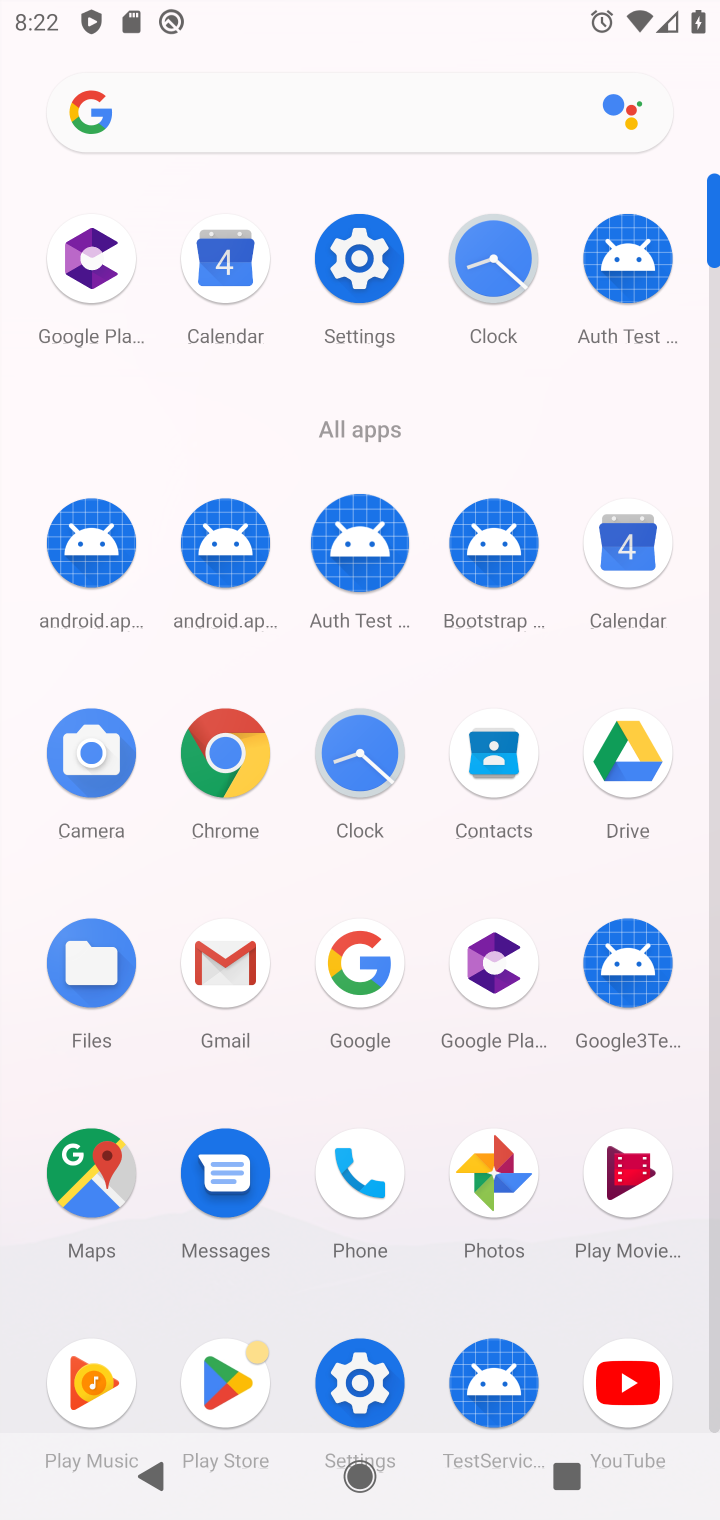
Step 28: click (316, 403)
Your task to perform on an android device: Show me recent news Image 29: 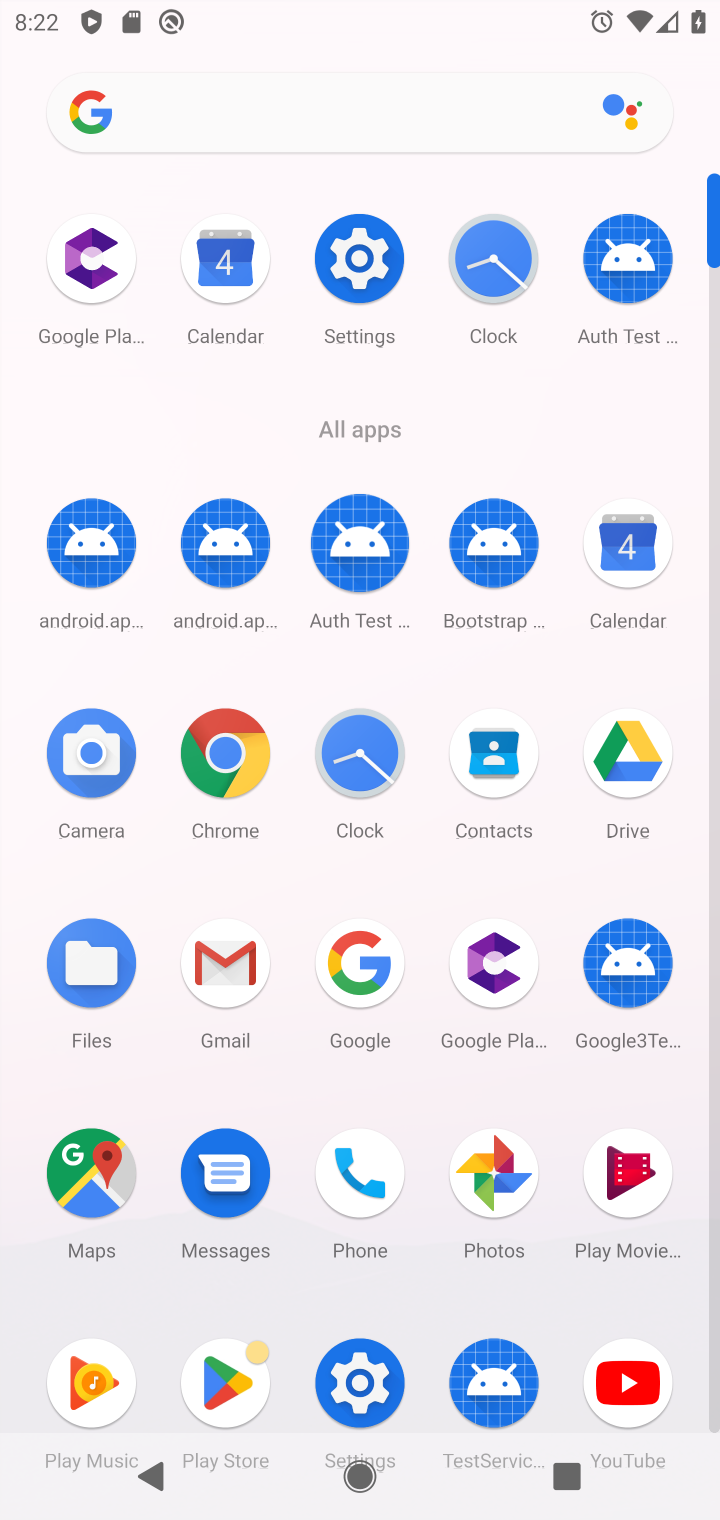
Step 29: click (143, 248)
Your task to perform on an android device: Show me recent news Image 30: 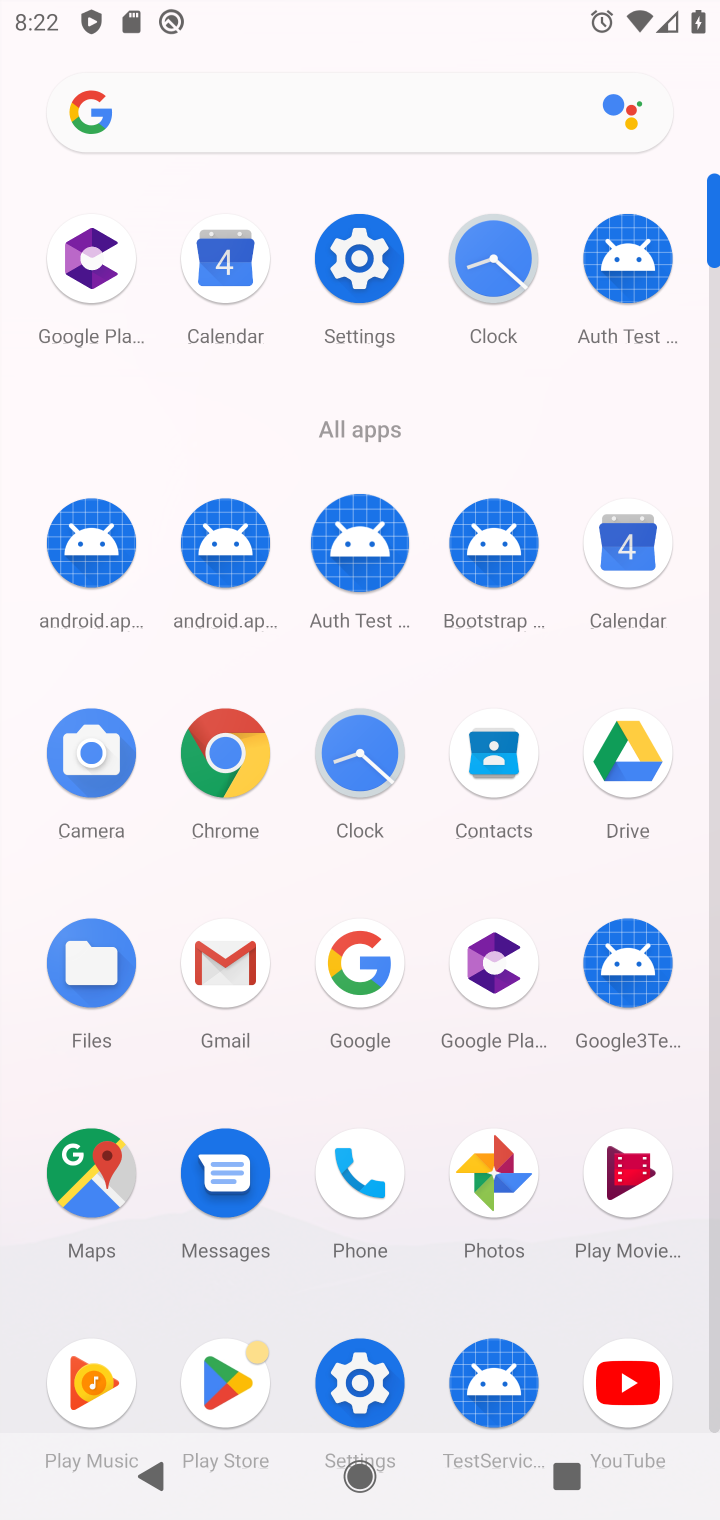
Step 30: click (277, 384)
Your task to perform on an android device: Show me recent news Image 31: 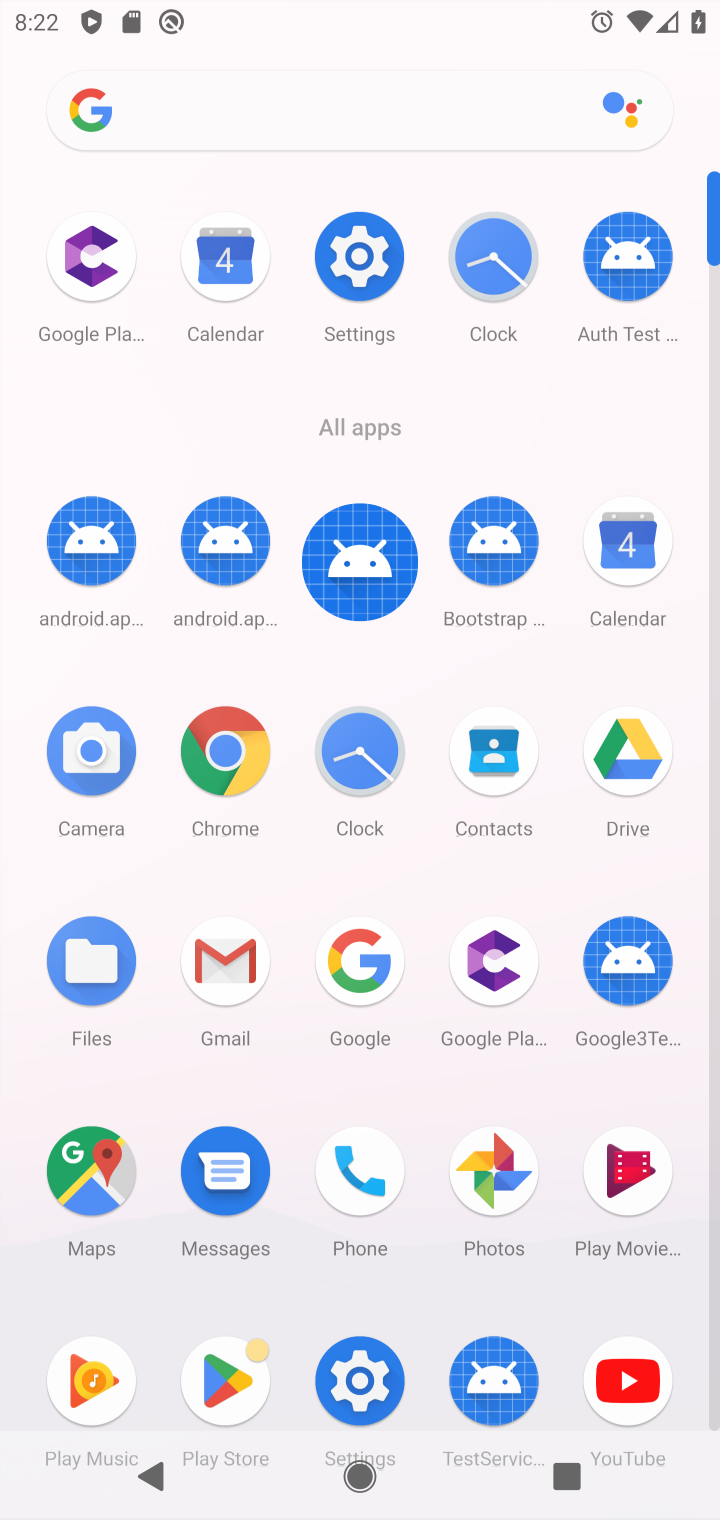
Step 31: drag from (397, 964) to (344, 290)
Your task to perform on an android device: Show me recent news Image 32: 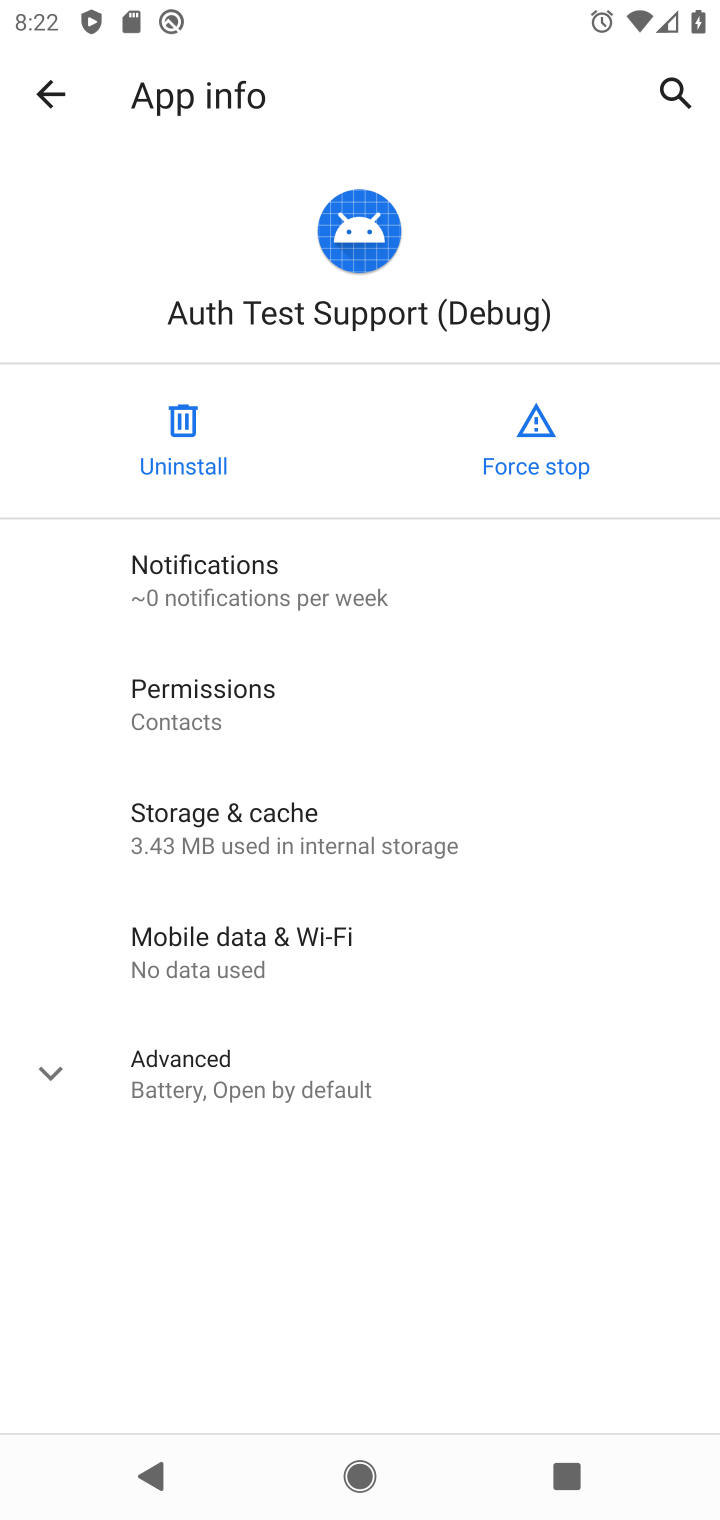
Step 32: drag from (444, 1000) to (337, 505)
Your task to perform on an android device: Show me recent news Image 33: 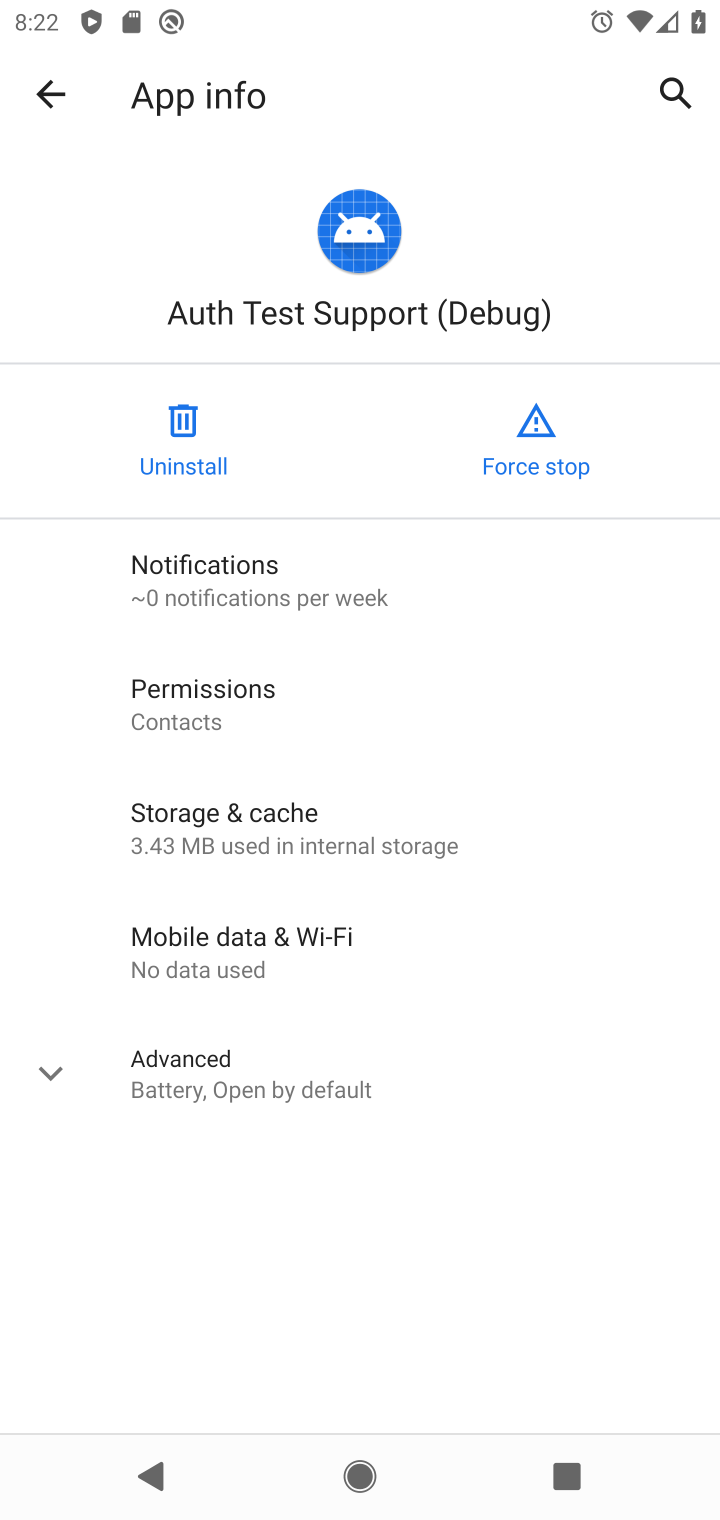
Step 33: click (36, 81)
Your task to perform on an android device: Show me recent news Image 34: 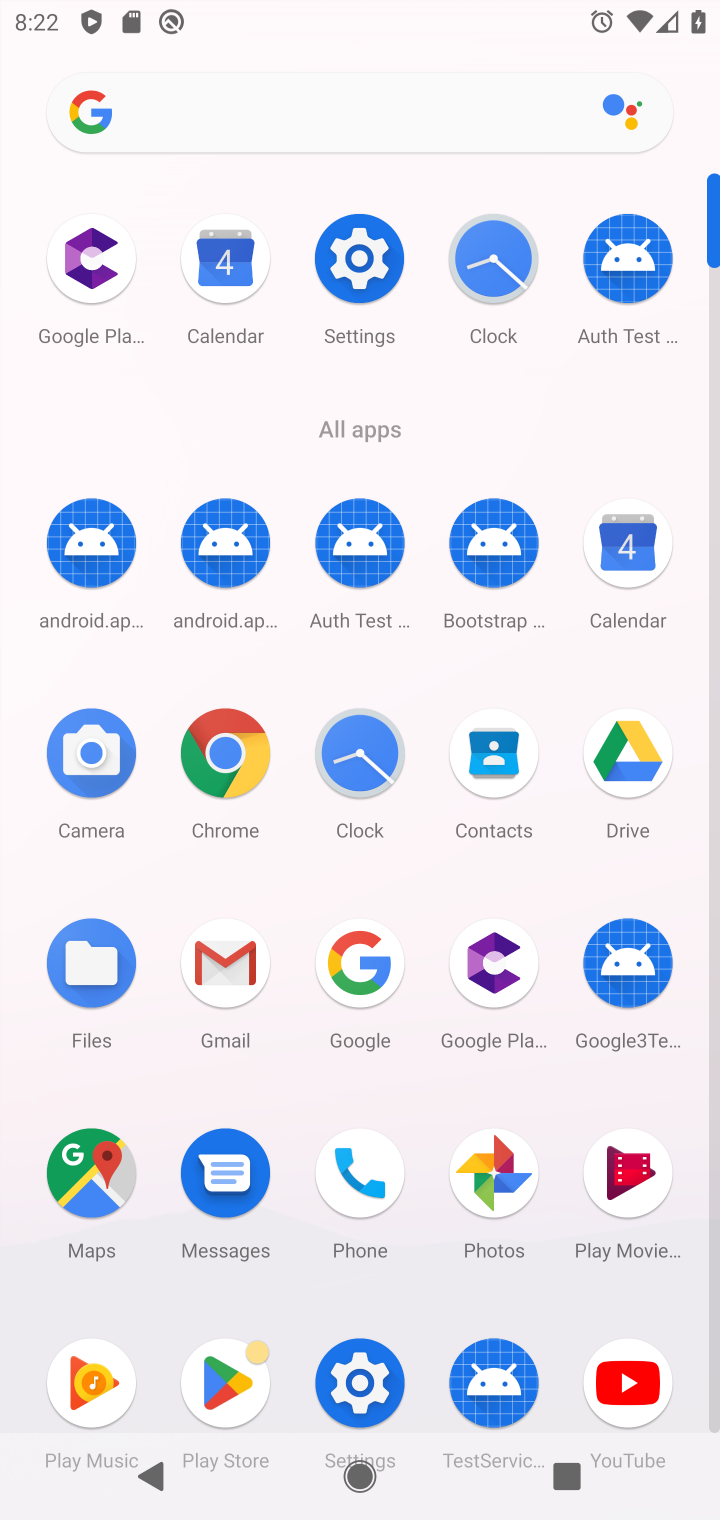
Step 34: click (228, 724)
Your task to perform on an android device: Show me recent news Image 35: 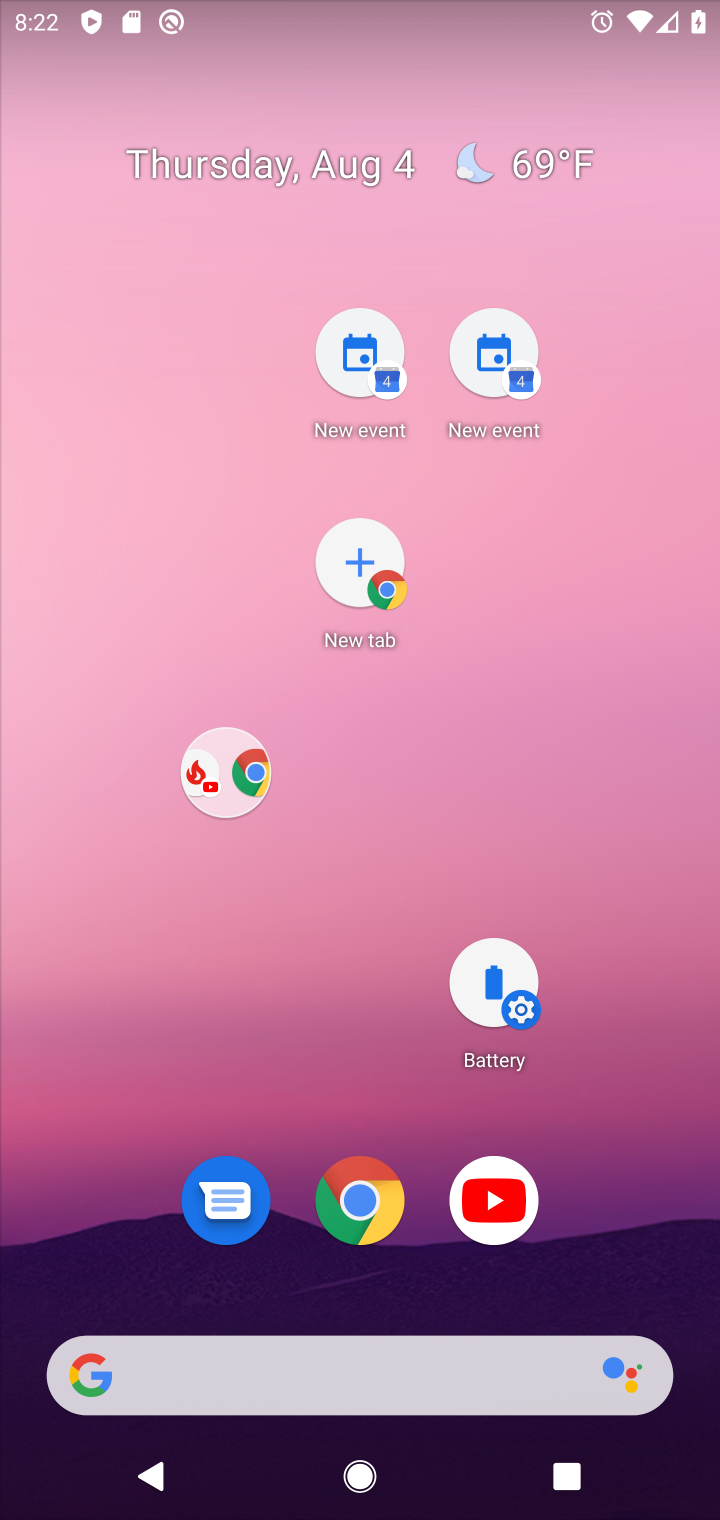
Step 35: drag from (296, 899) to (322, 167)
Your task to perform on an android device: Show me recent news Image 36: 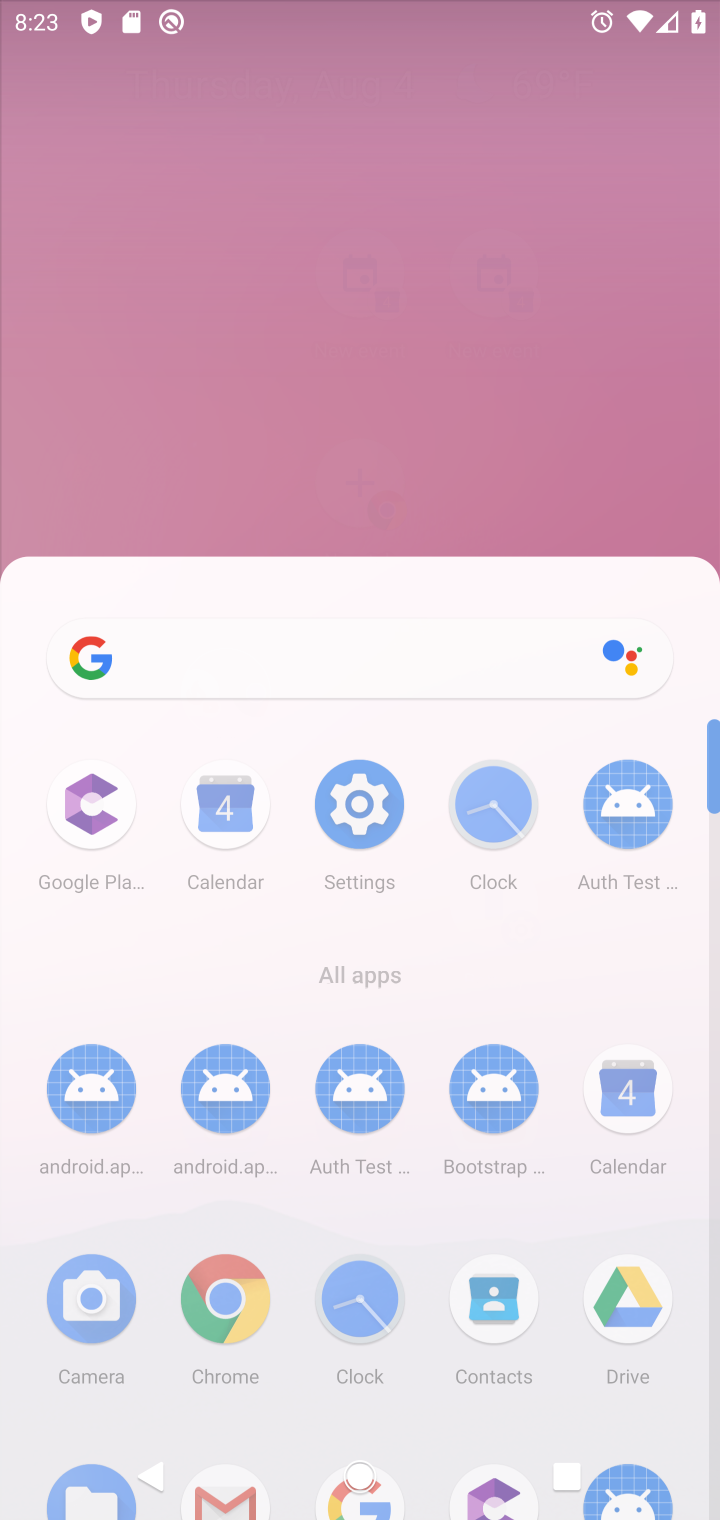
Step 36: drag from (324, 679) to (324, 462)
Your task to perform on an android device: Show me recent news Image 37: 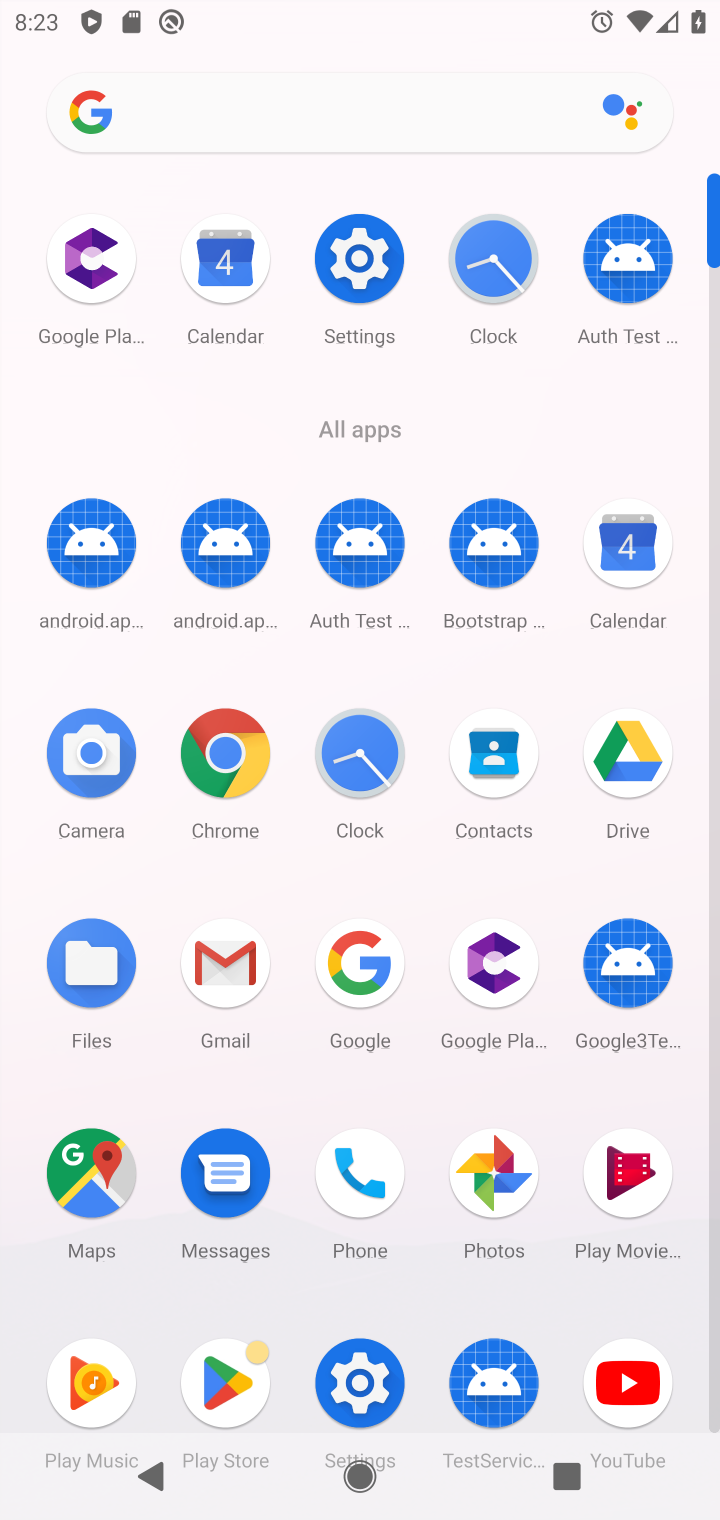
Step 37: drag from (435, 1229) to (369, 495)
Your task to perform on an android device: Show me recent news Image 38: 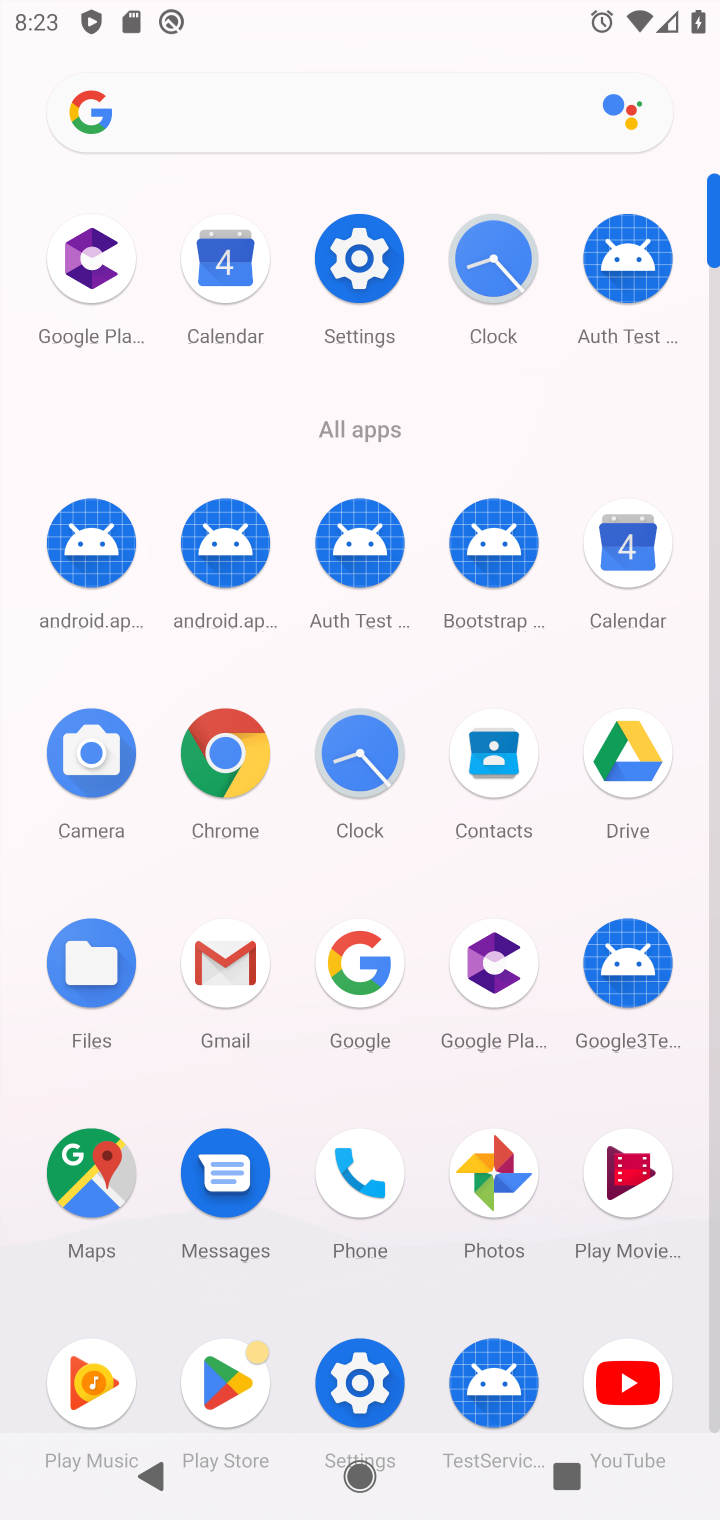
Step 38: drag from (215, 726) to (260, 807)
Your task to perform on an android device: Show me recent news Image 39: 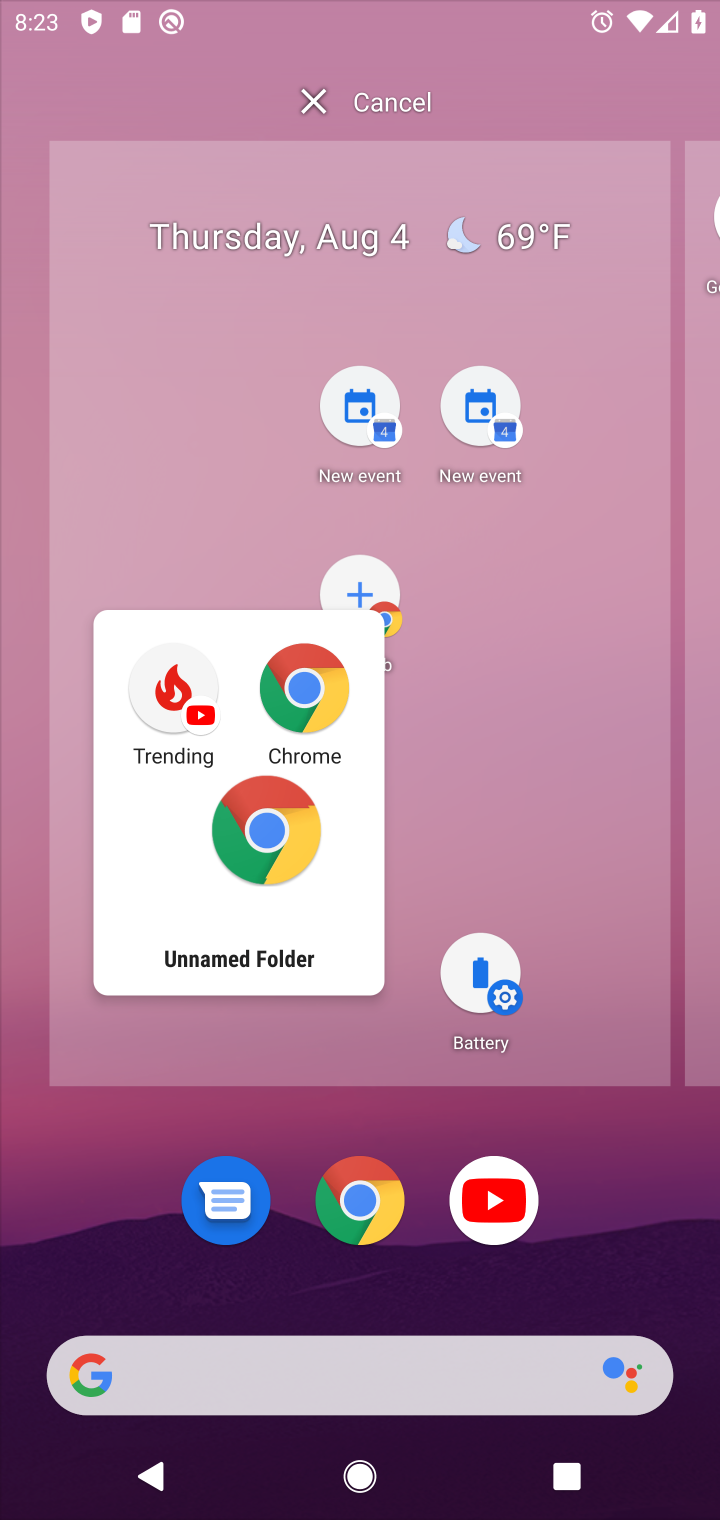
Step 39: click (275, 831)
Your task to perform on an android device: Show me recent news Image 40: 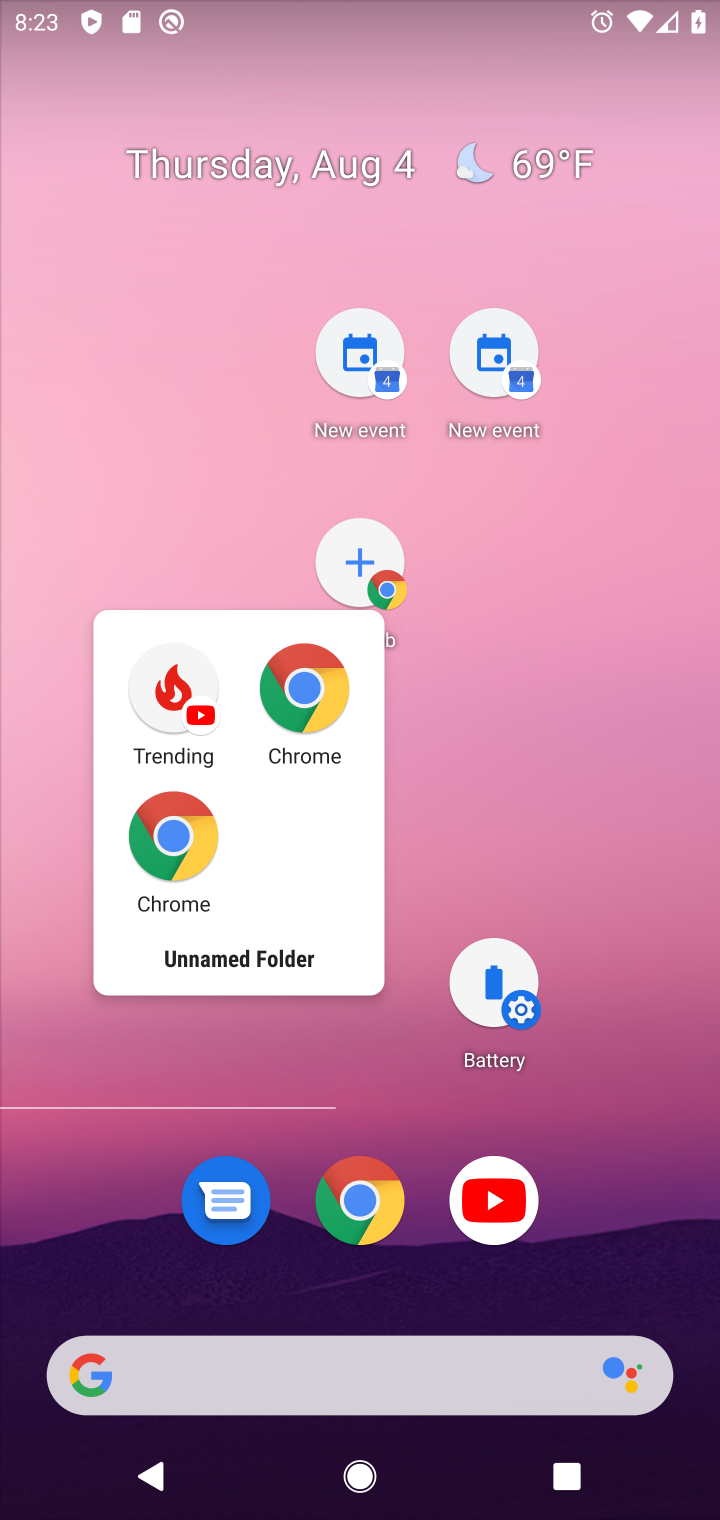
Step 40: drag from (414, 1008) to (268, 198)
Your task to perform on an android device: Show me recent news Image 41: 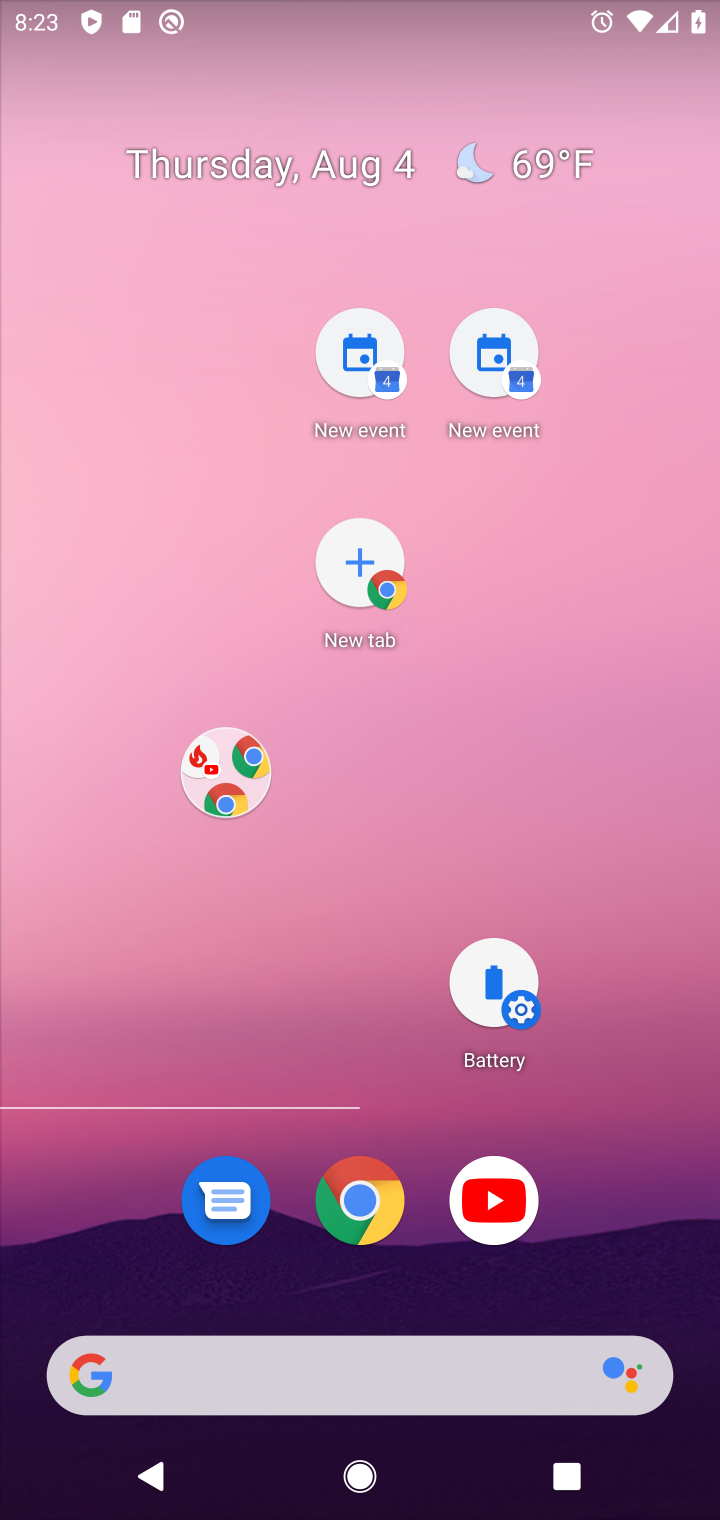
Step 41: drag from (301, 366) to (320, 130)
Your task to perform on an android device: Show me recent news Image 42: 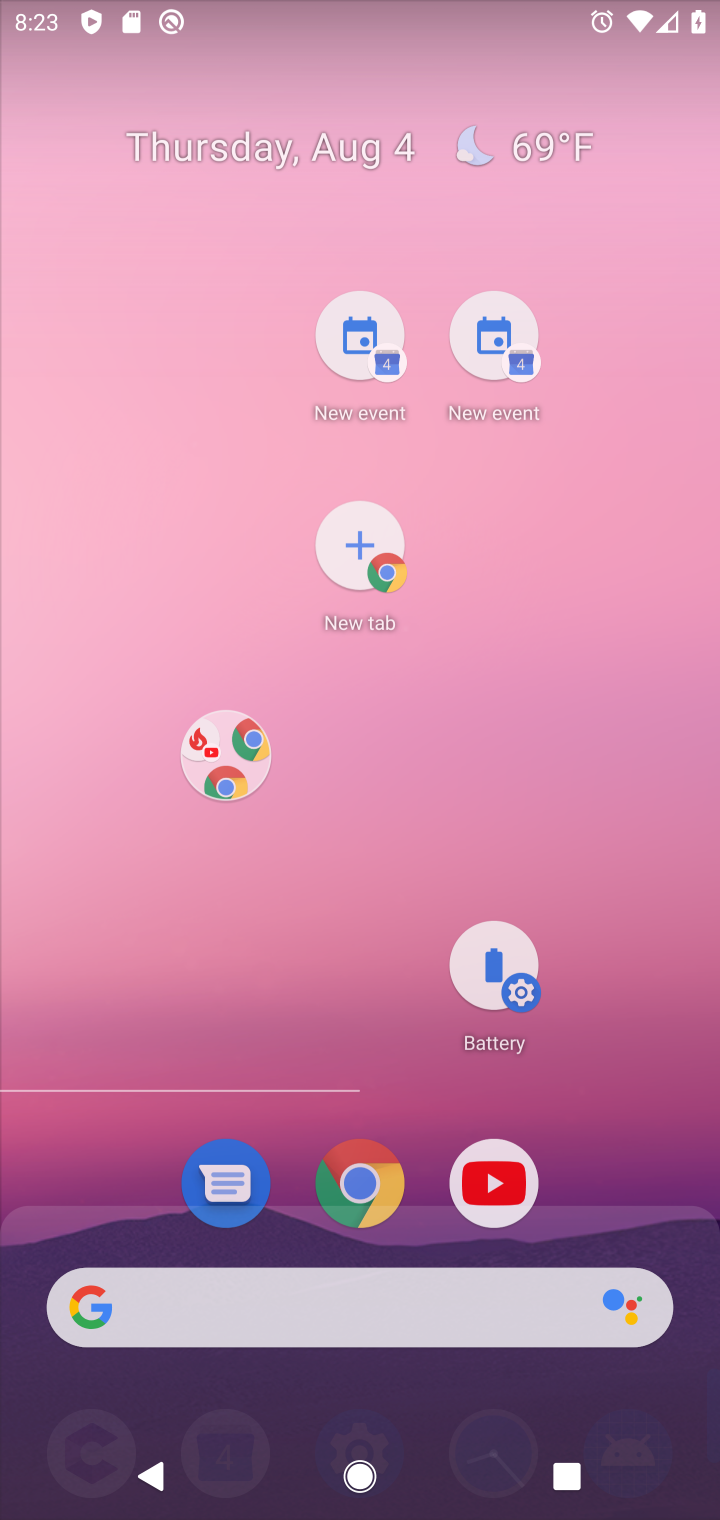
Step 42: click (347, 1213)
Your task to perform on an android device: Show me recent news Image 43: 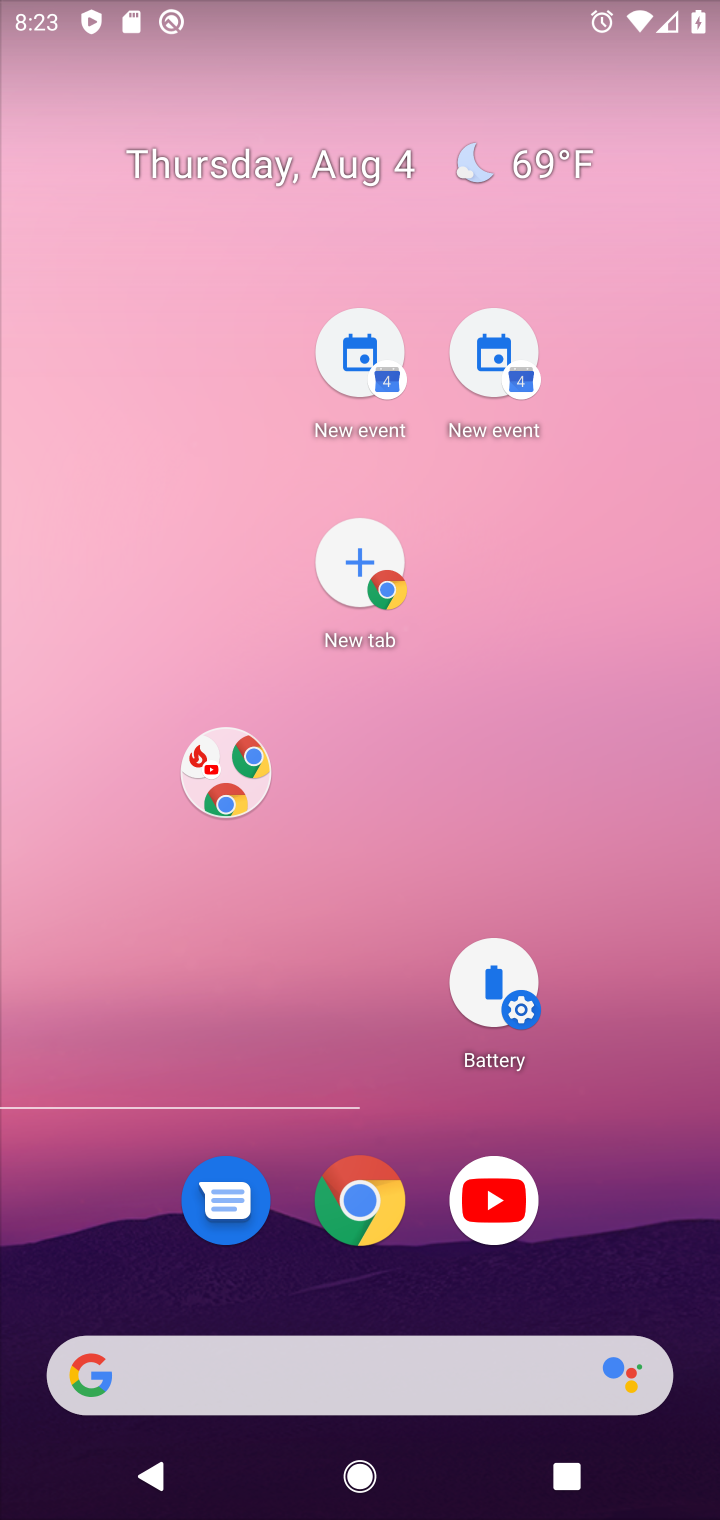
Step 43: click (363, 1202)
Your task to perform on an android device: Show me recent news Image 44: 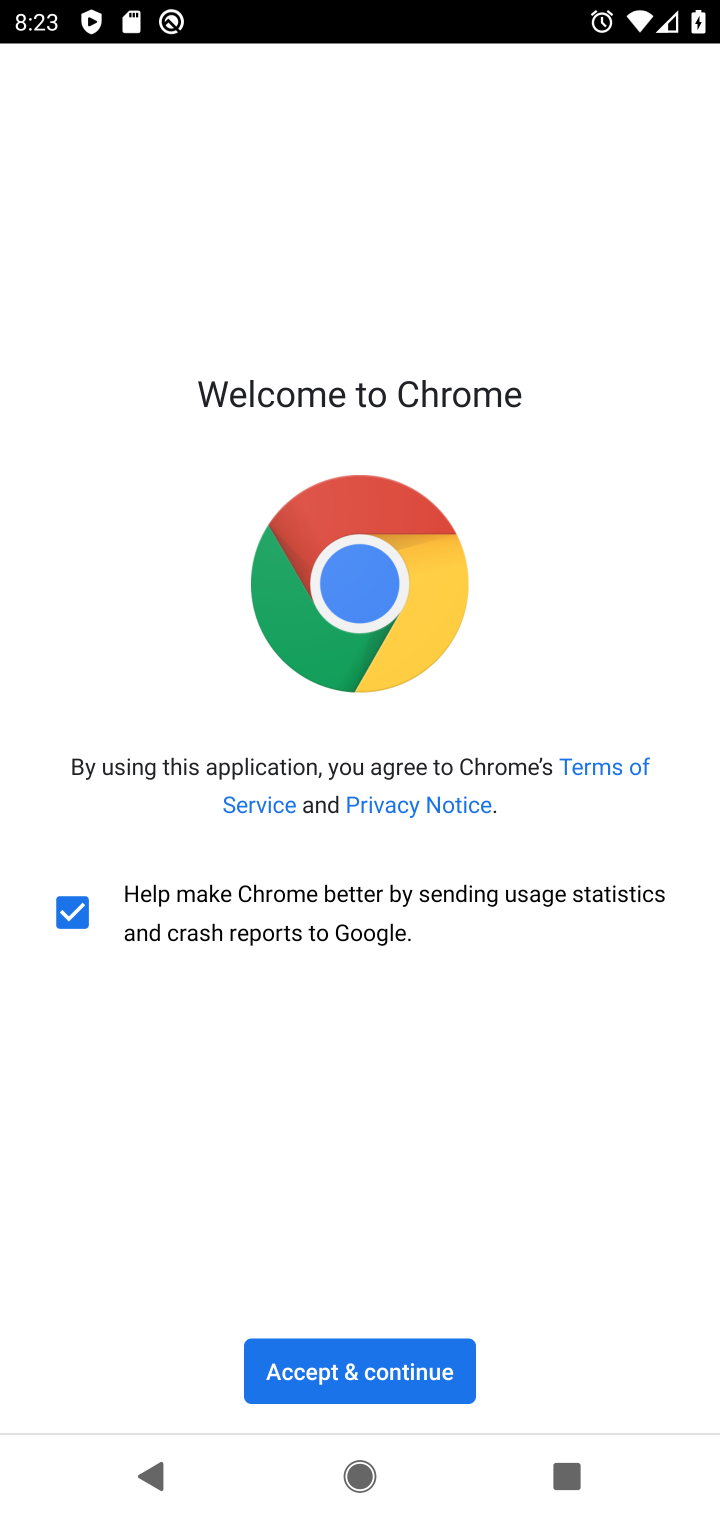
Step 44: click (367, 1379)
Your task to perform on an android device: Show me recent news Image 45: 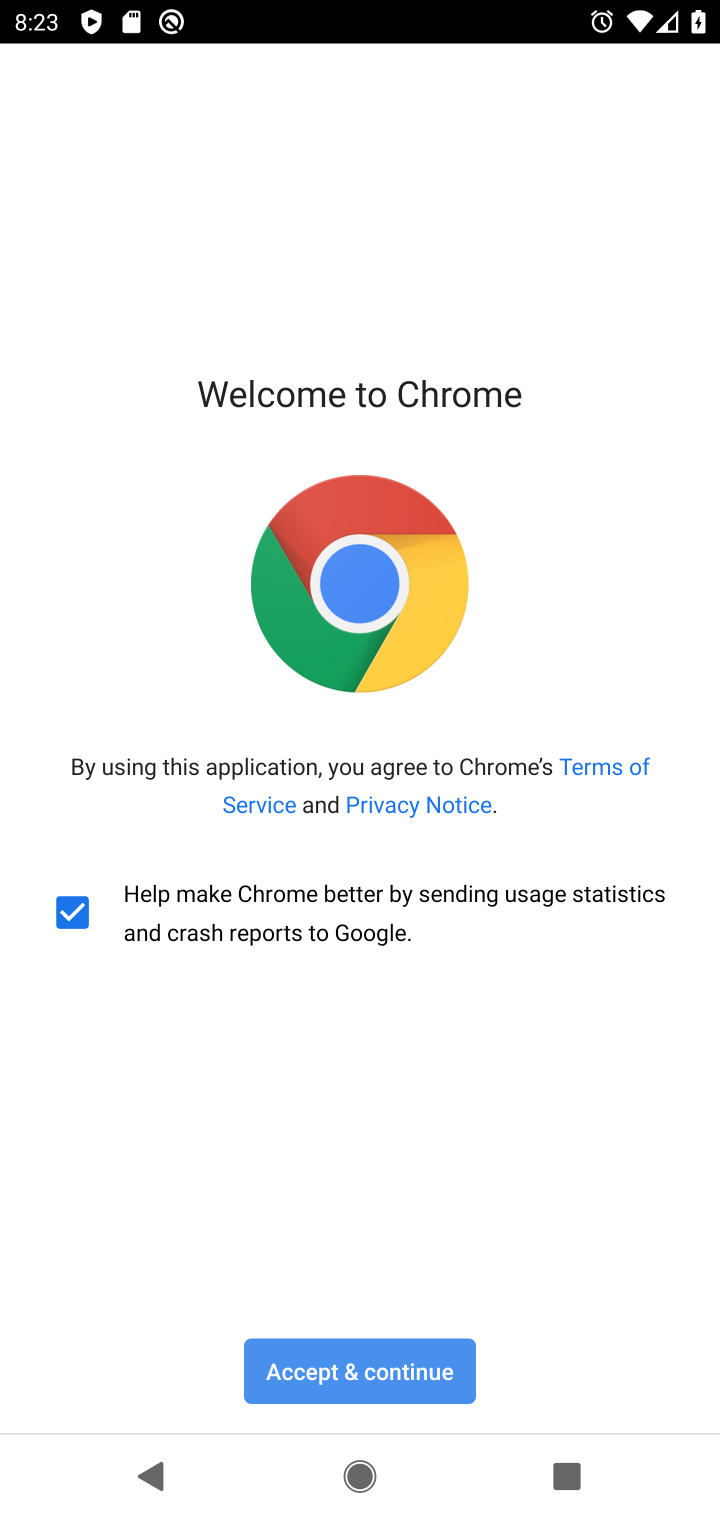
Step 45: click (366, 1379)
Your task to perform on an android device: Show me recent news Image 46: 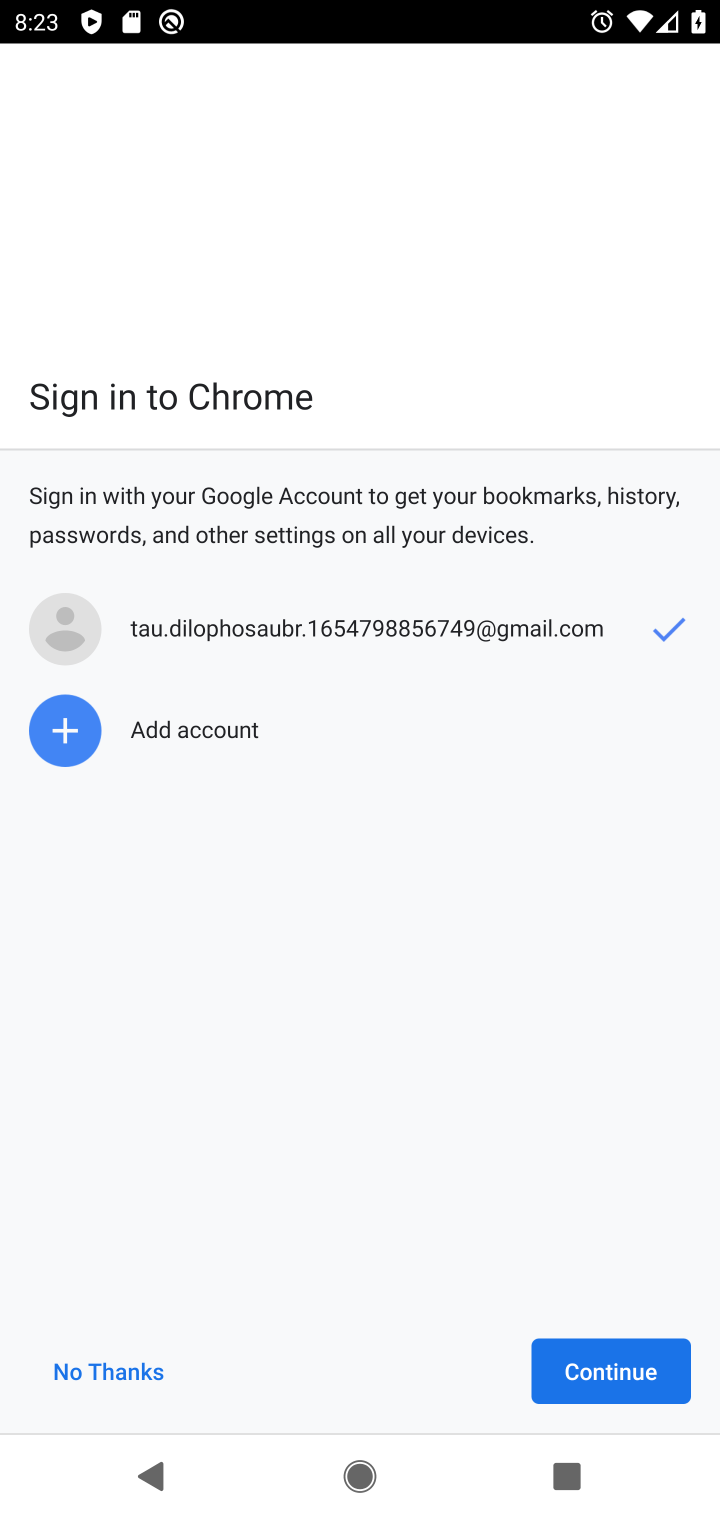
Step 46: click (364, 1379)
Your task to perform on an android device: Show me recent news Image 47: 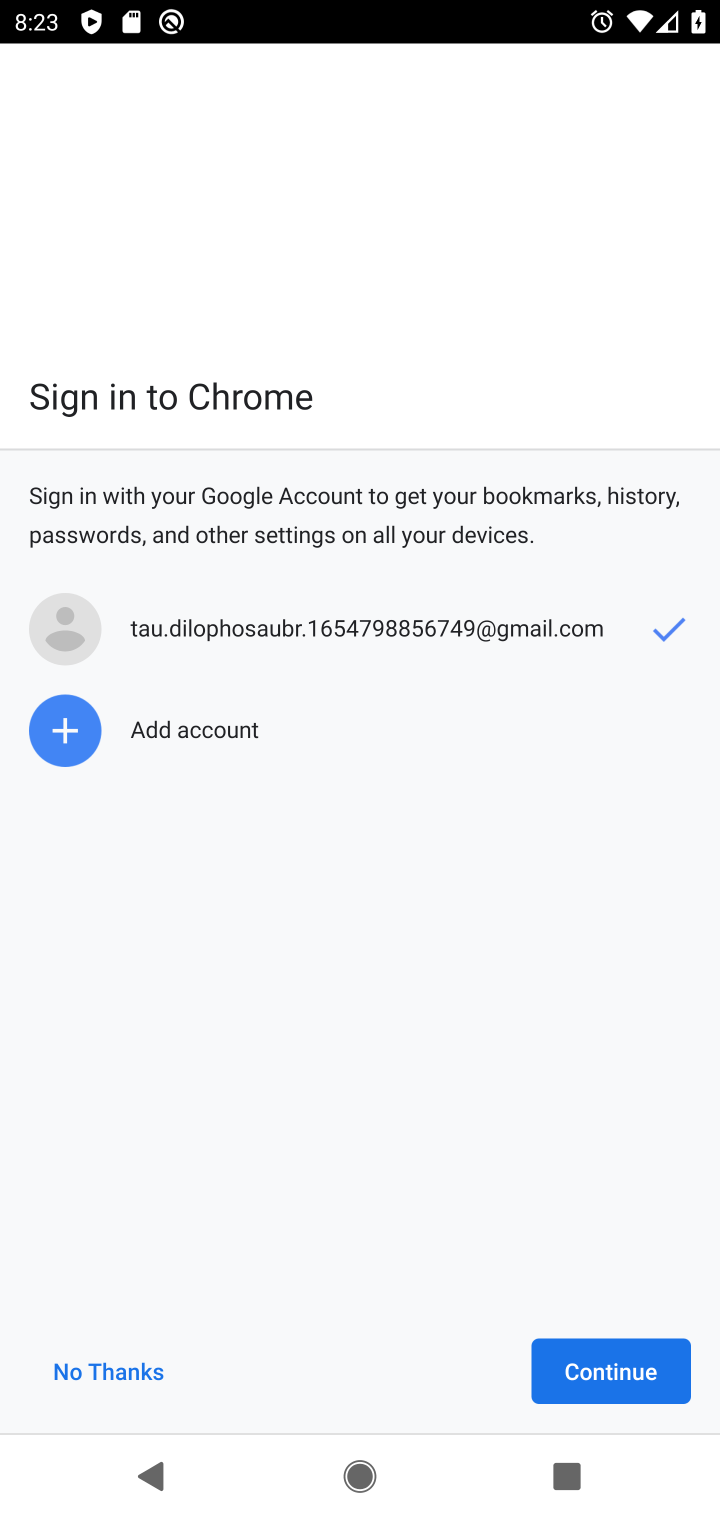
Step 47: click (364, 1379)
Your task to perform on an android device: Show me recent news Image 48: 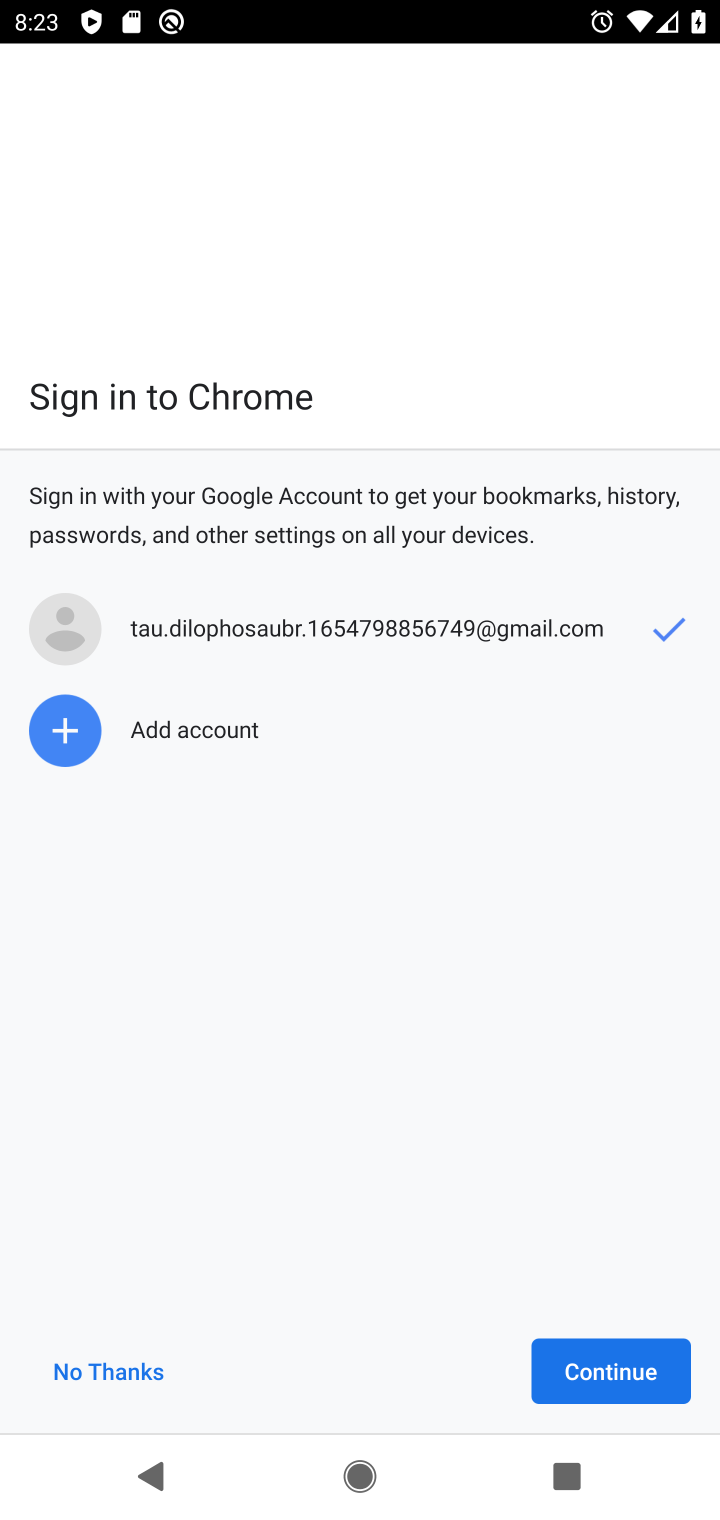
Step 48: click (362, 1381)
Your task to perform on an android device: Show me recent news Image 49: 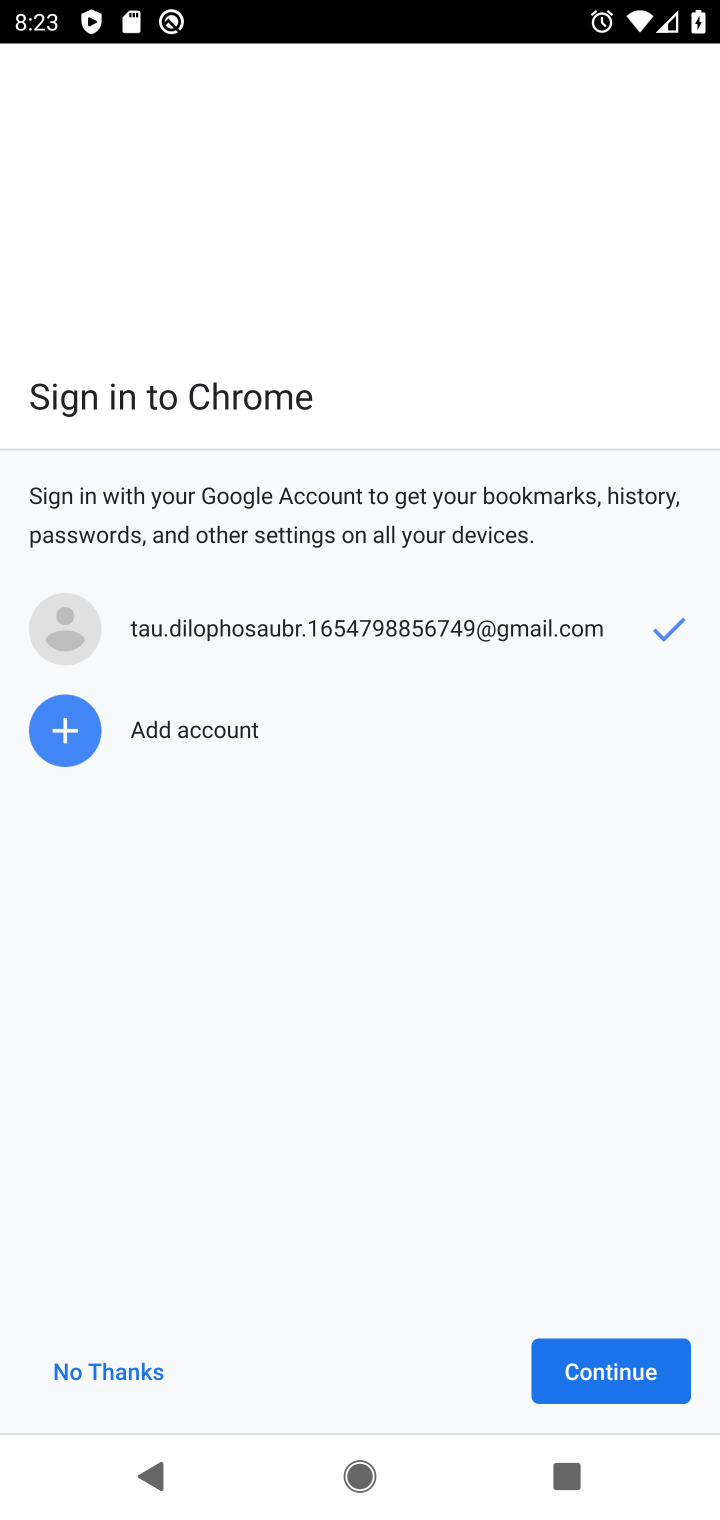
Step 49: click (82, 1373)
Your task to perform on an android device: Show me recent news Image 50: 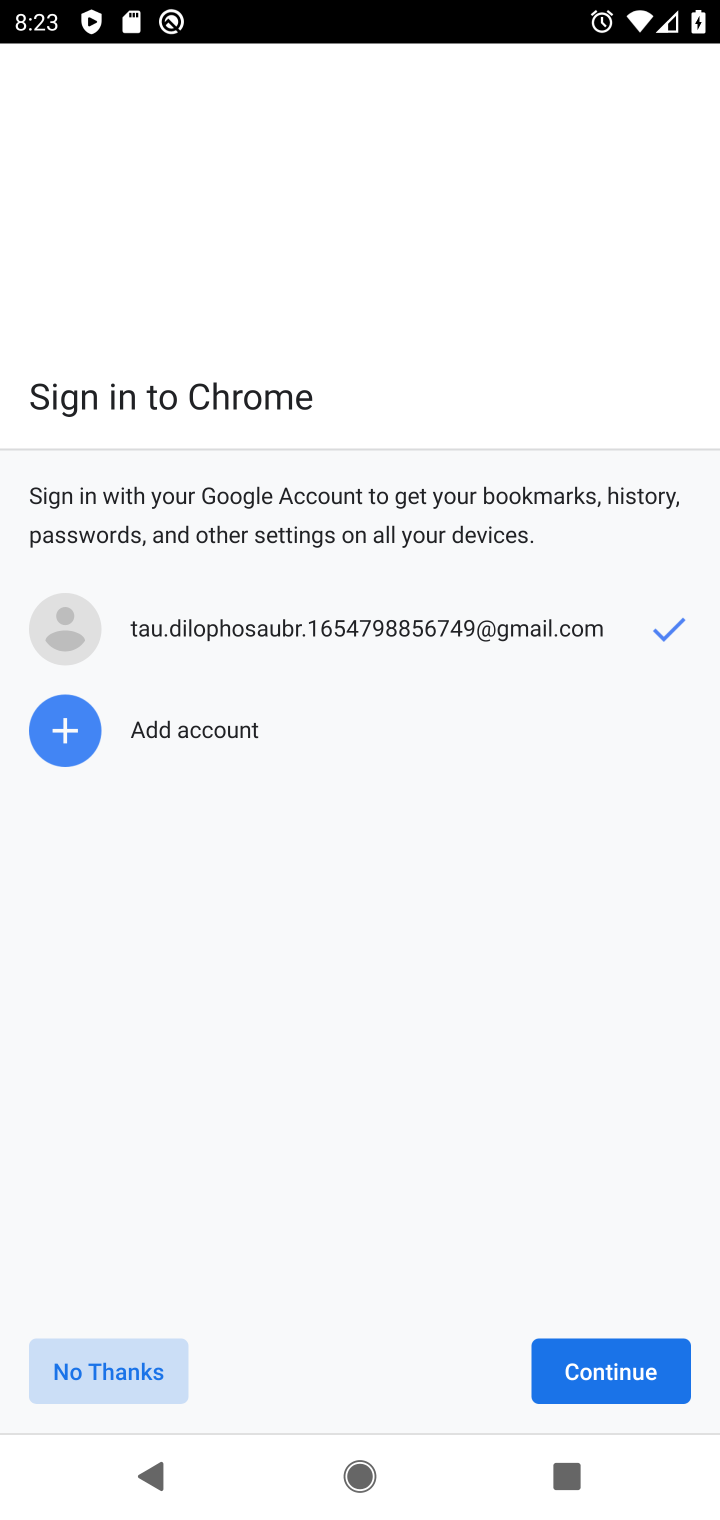
Step 50: click (114, 1363)
Your task to perform on an android device: Show me recent news Image 51: 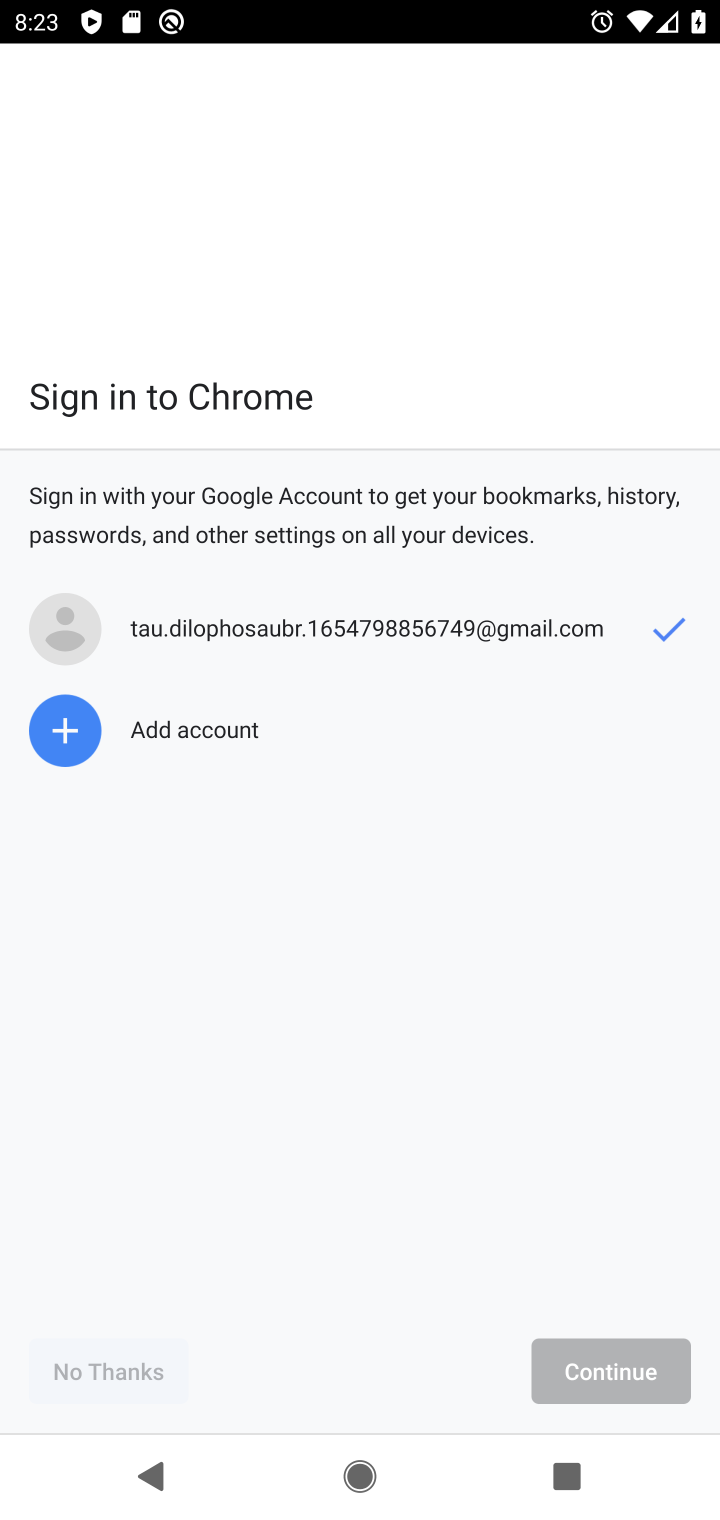
Step 51: click (110, 1348)
Your task to perform on an android device: Show me recent news Image 52: 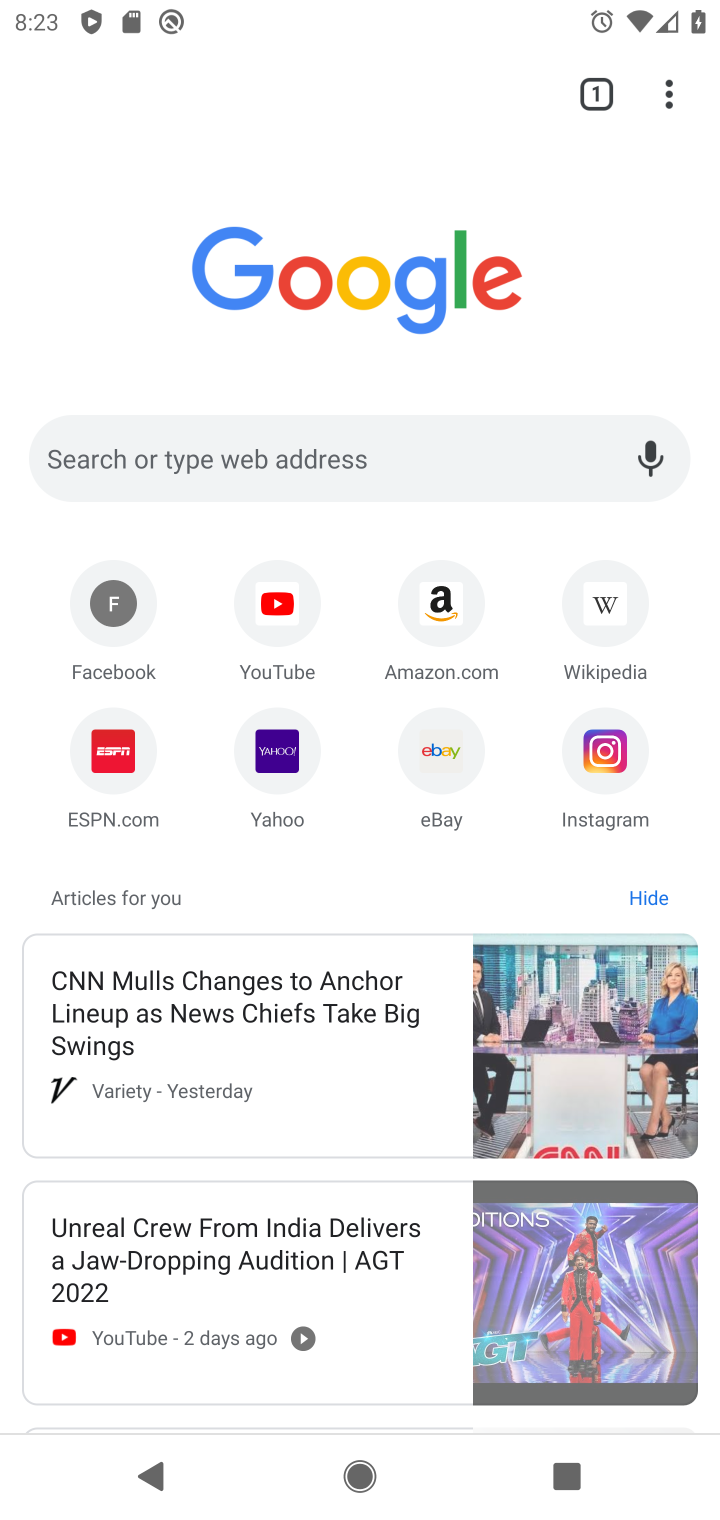
Step 52: task complete